Your task to perform on an android device: uninstall "Gboard" Image 0: 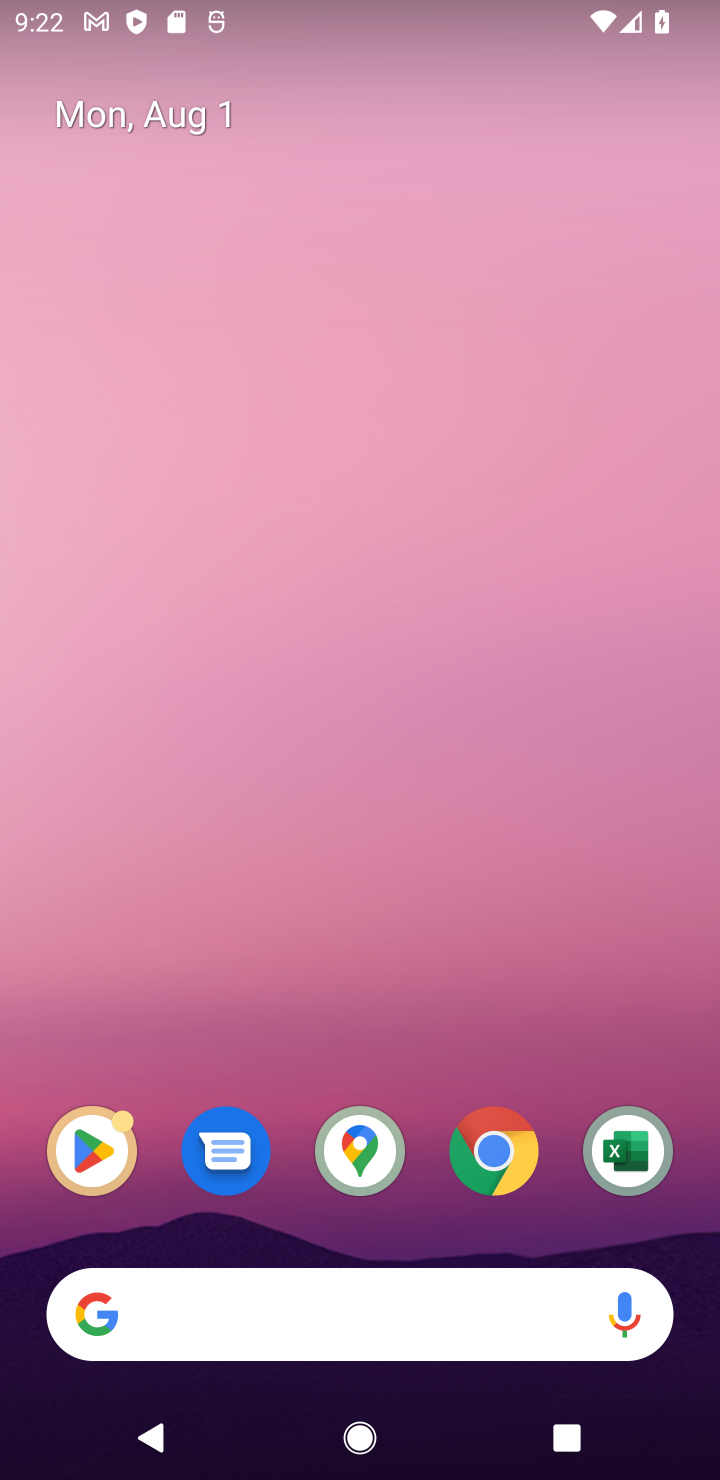
Step 0: drag from (414, 967) to (507, 269)
Your task to perform on an android device: uninstall "Gboard" Image 1: 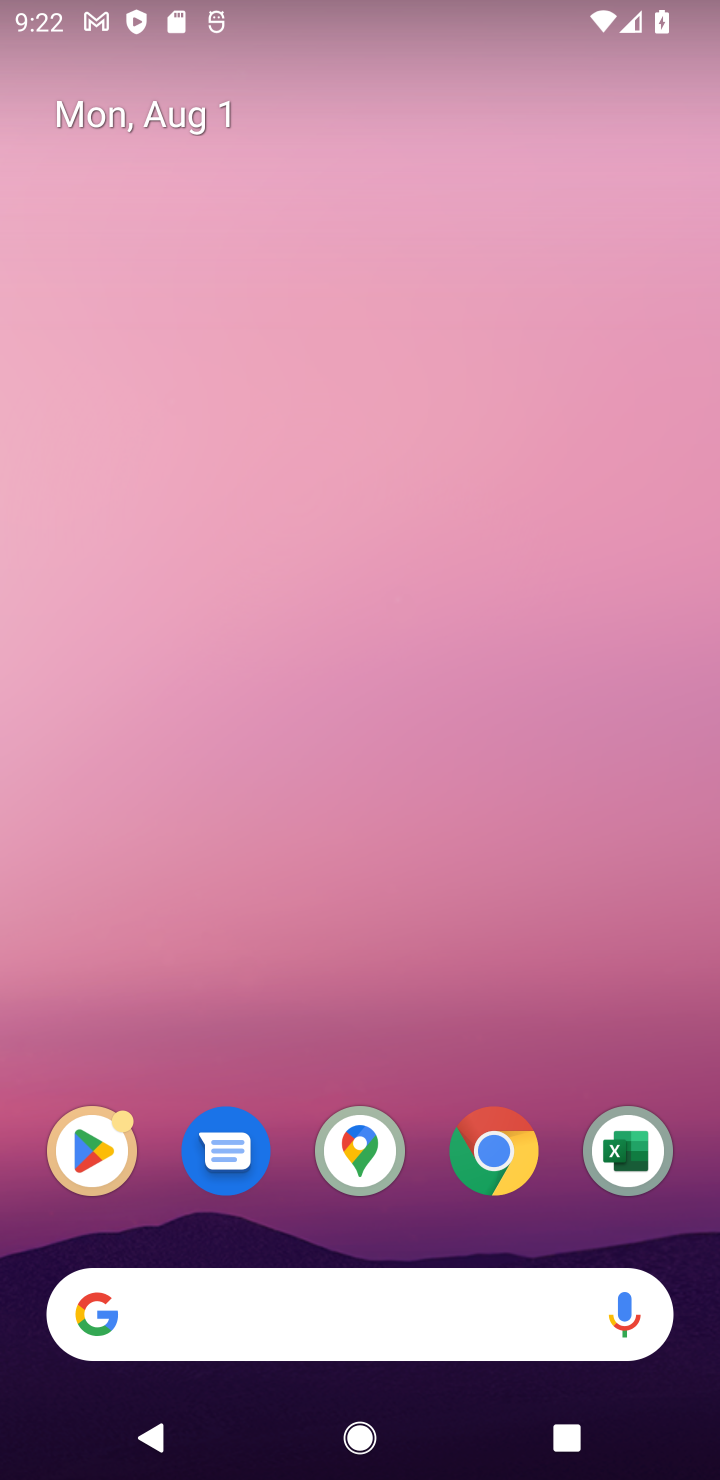
Step 1: drag from (389, 744) to (576, 135)
Your task to perform on an android device: uninstall "Gboard" Image 2: 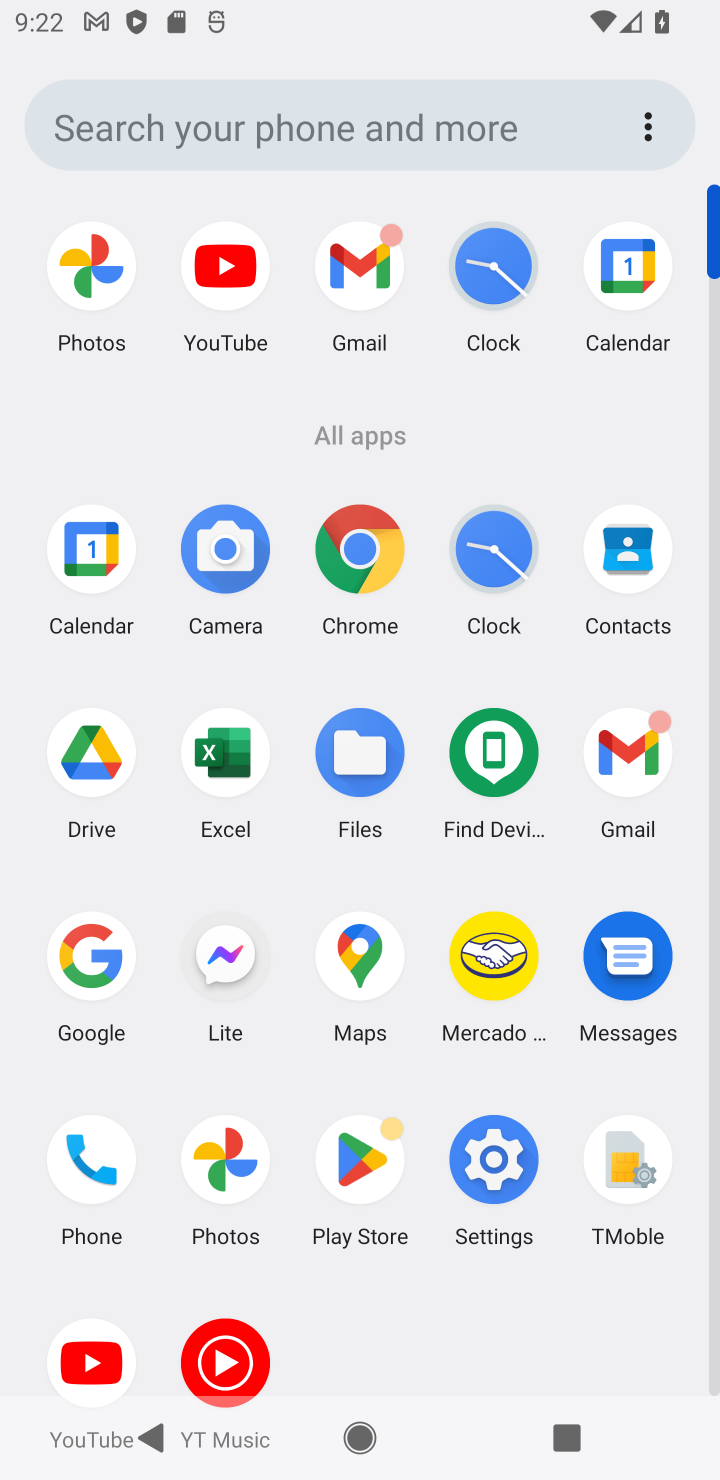
Step 2: click (335, 1171)
Your task to perform on an android device: uninstall "Gboard" Image 3: 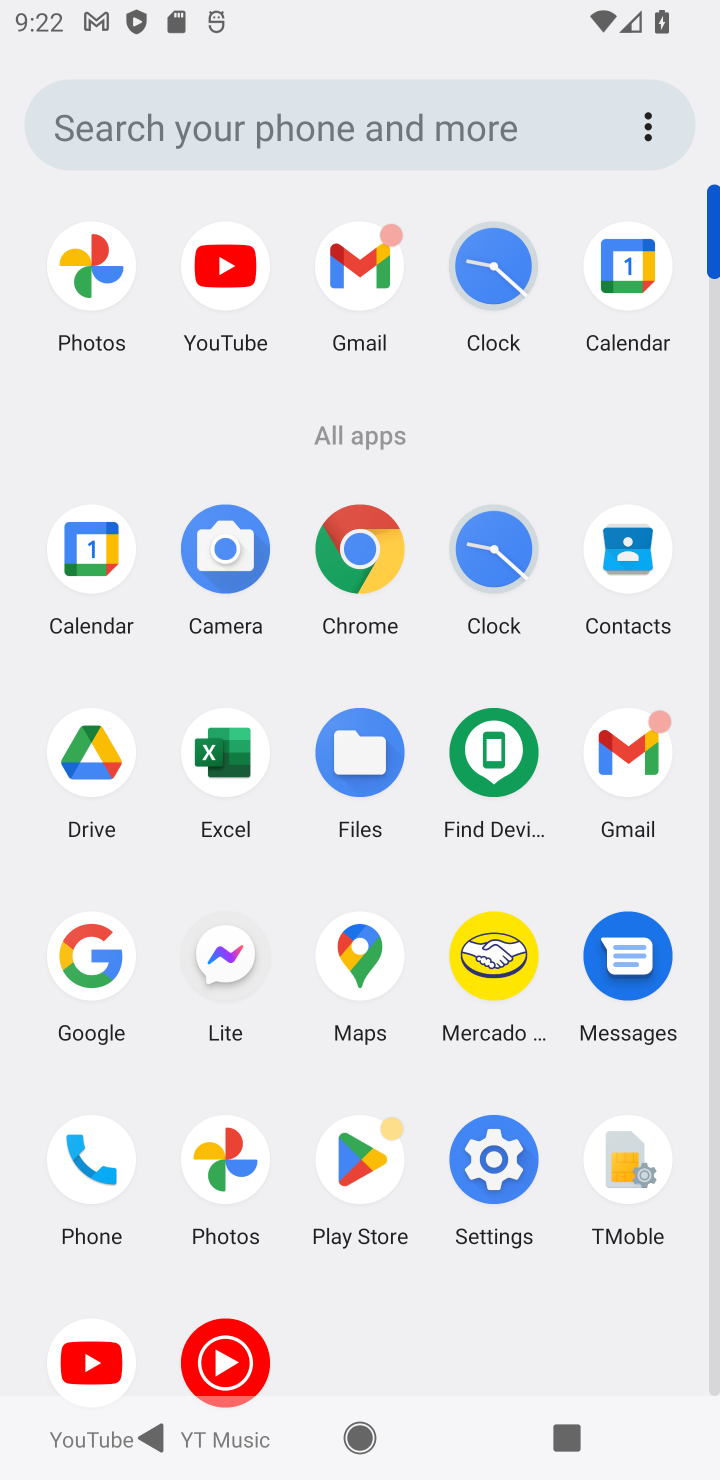
Step 3: click (336, 1173)
Your task to perform on an android device: uninstall "Gboard" Image 4: 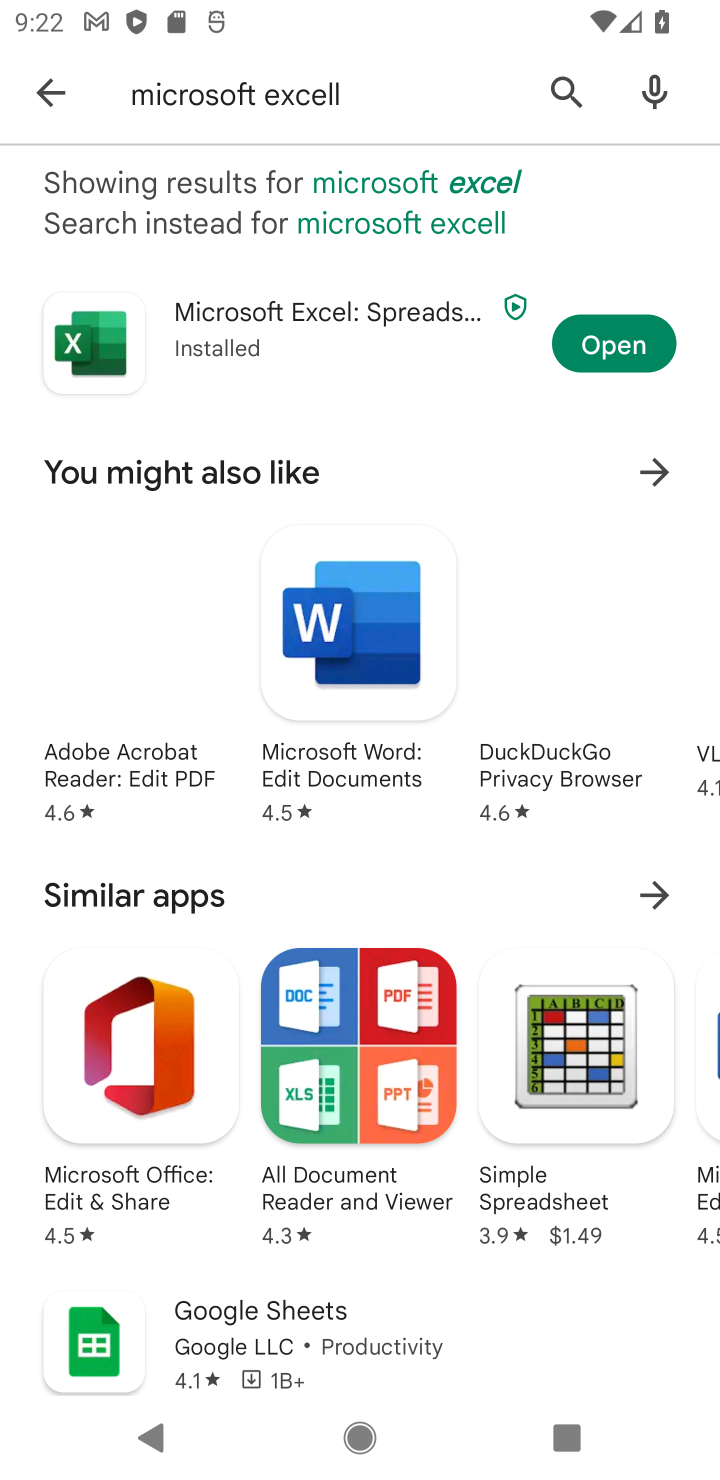
Step 4: click (352, 1176)
Your task to perform on an android device: uninstall "Gboard" Image 5: 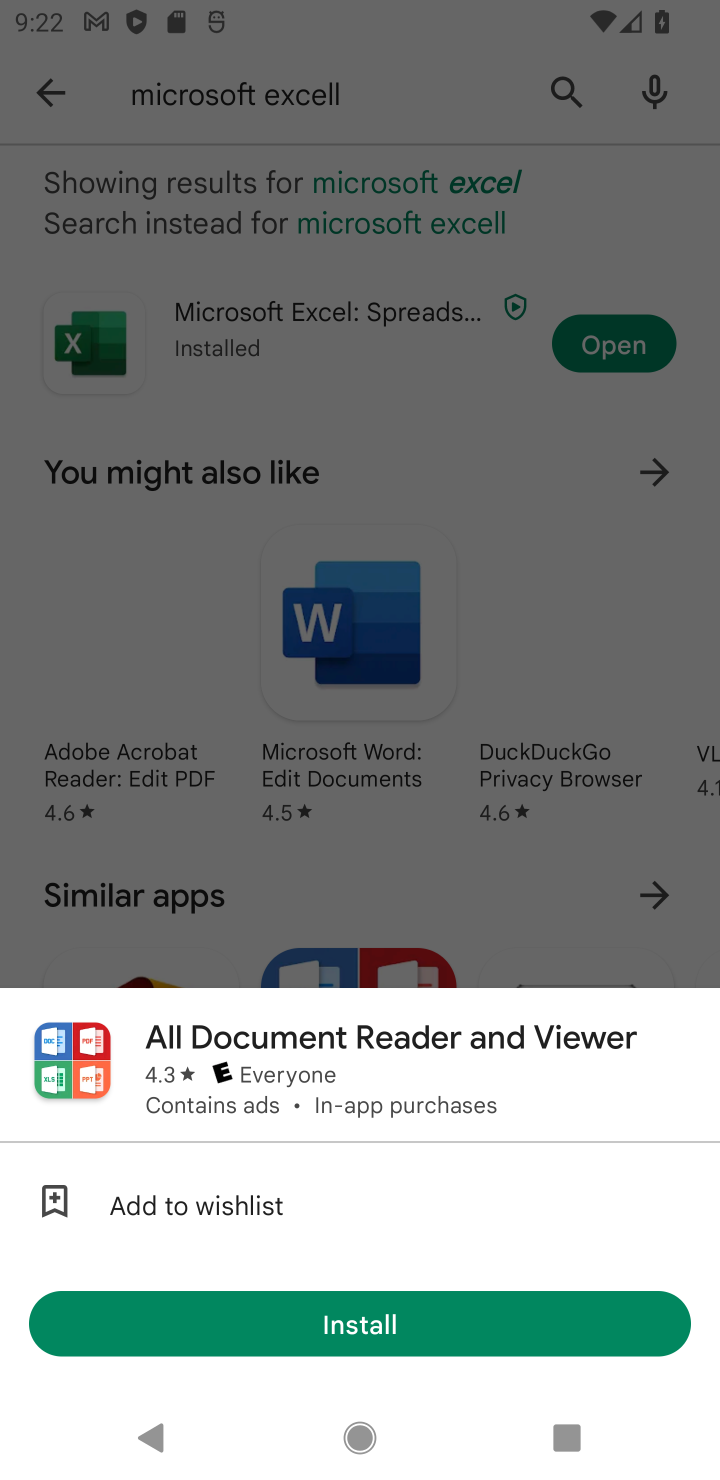
Step 5: click (495, 488)
Your task to perform on an android device: uninstall "Gboard" Image 6: 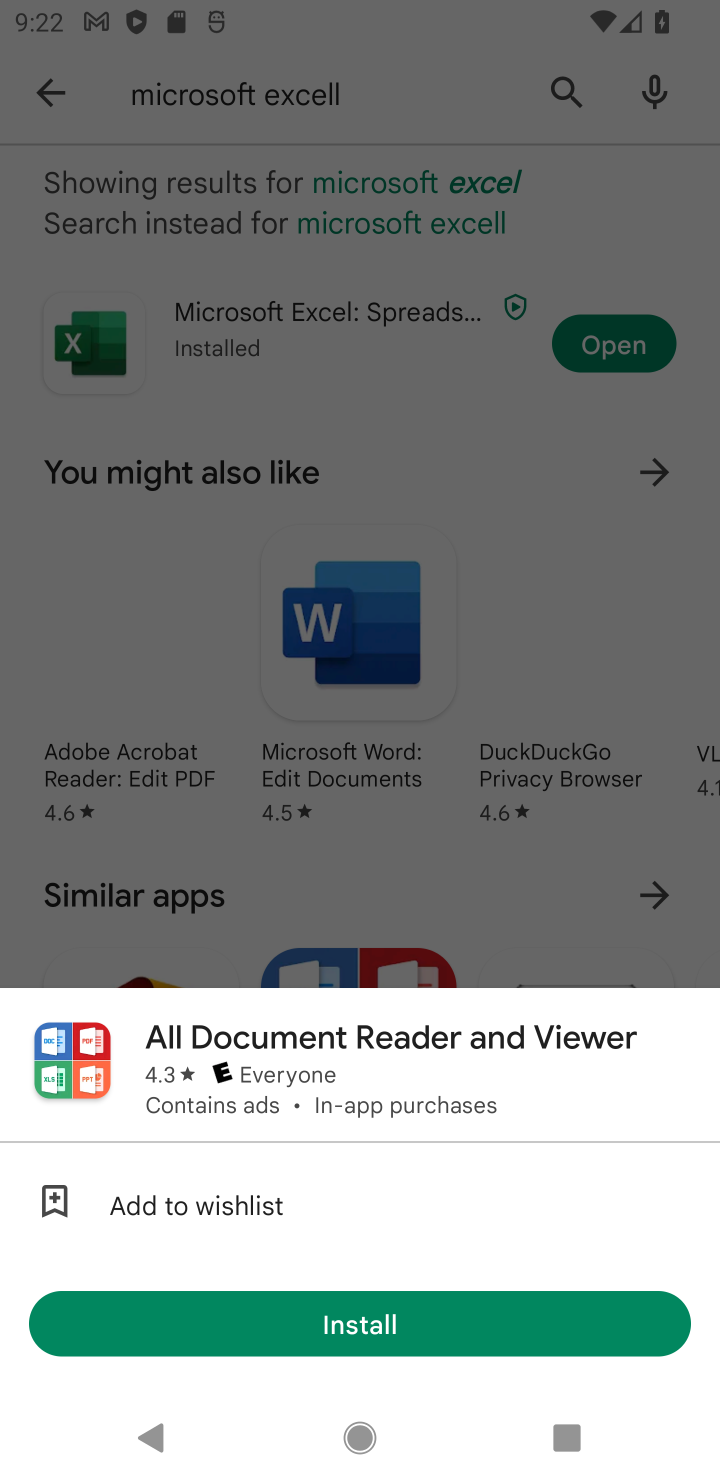
Step 6: click (495, 488)
Your task to perform on an android device: uninstall "Gboard" Image 7: 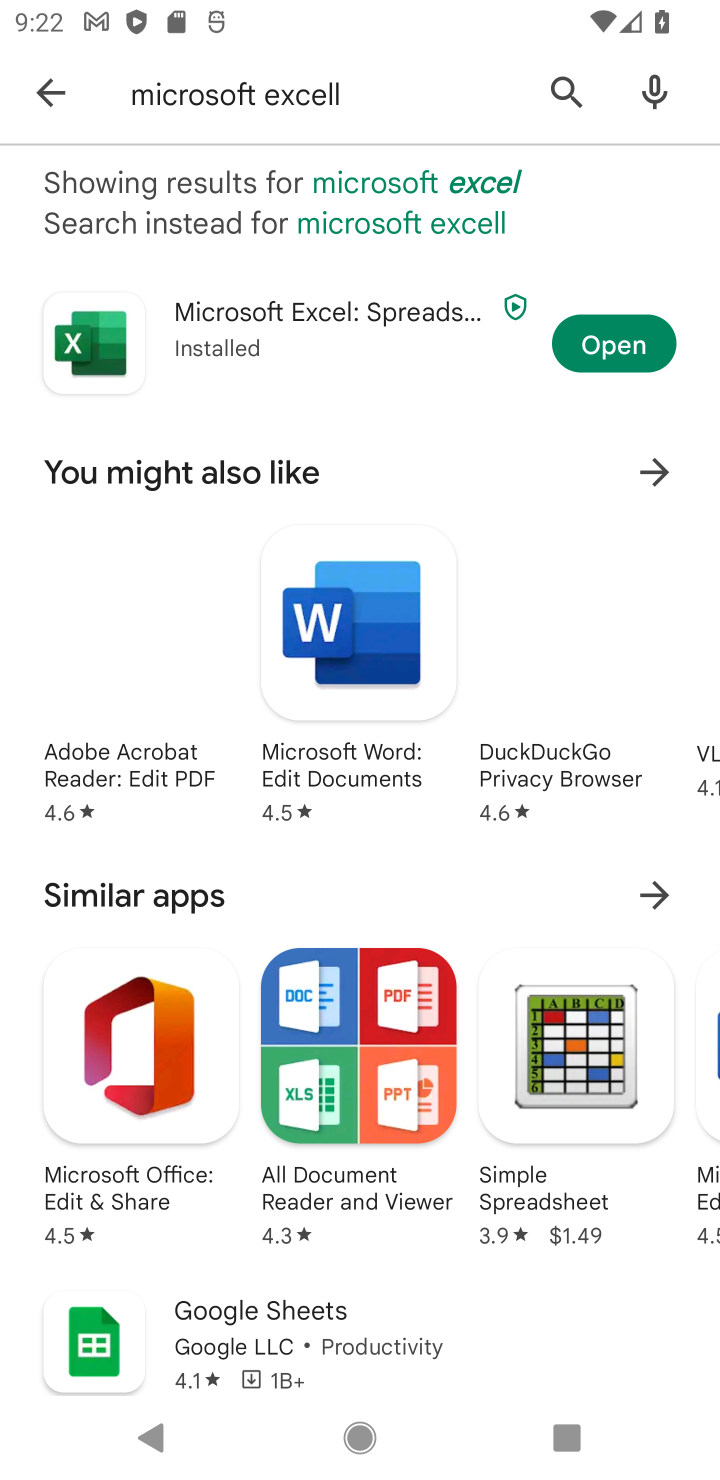
Step 7: click (555, 599)
Your task to perform on an android device: uninstall "Gboard" Image 8: 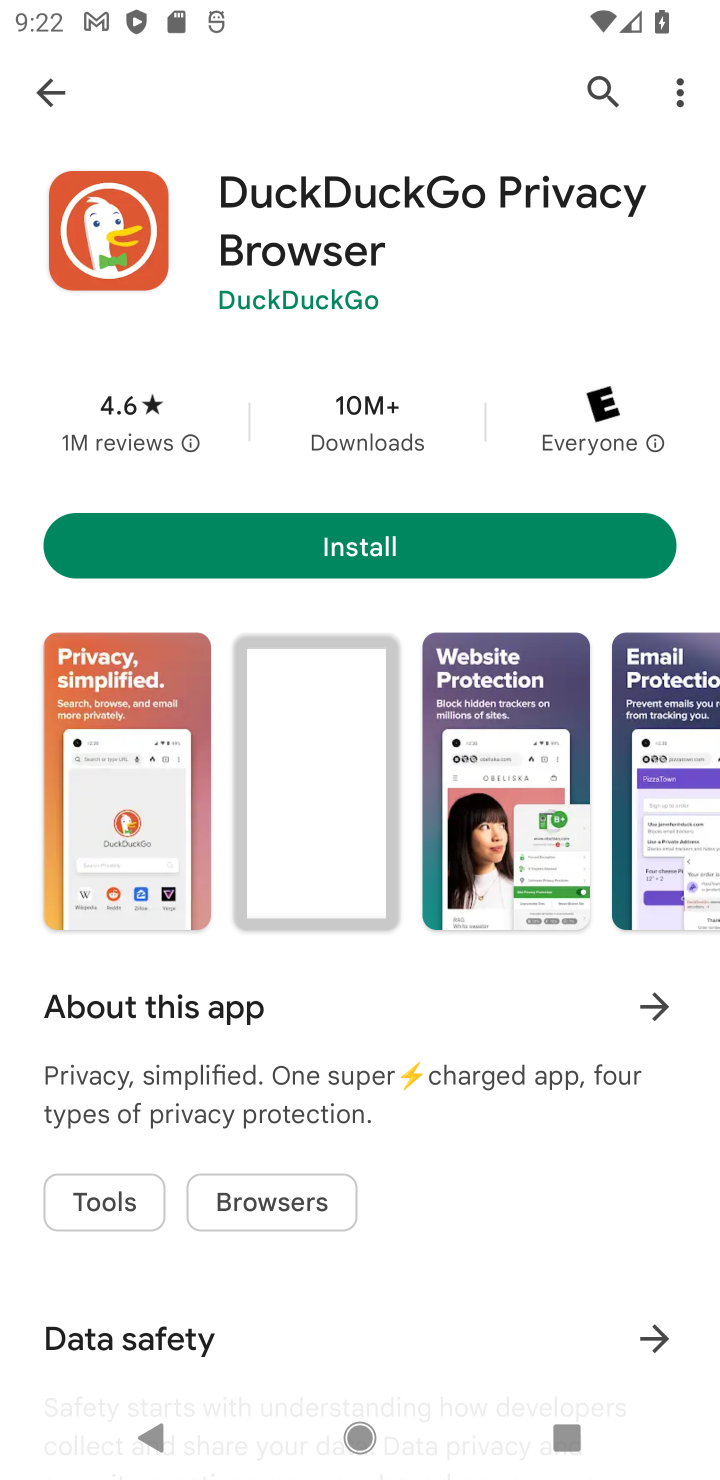
Step 8: click (64, 67)
Your task to perform on an android device: uninstall "Gboard" Image 9: 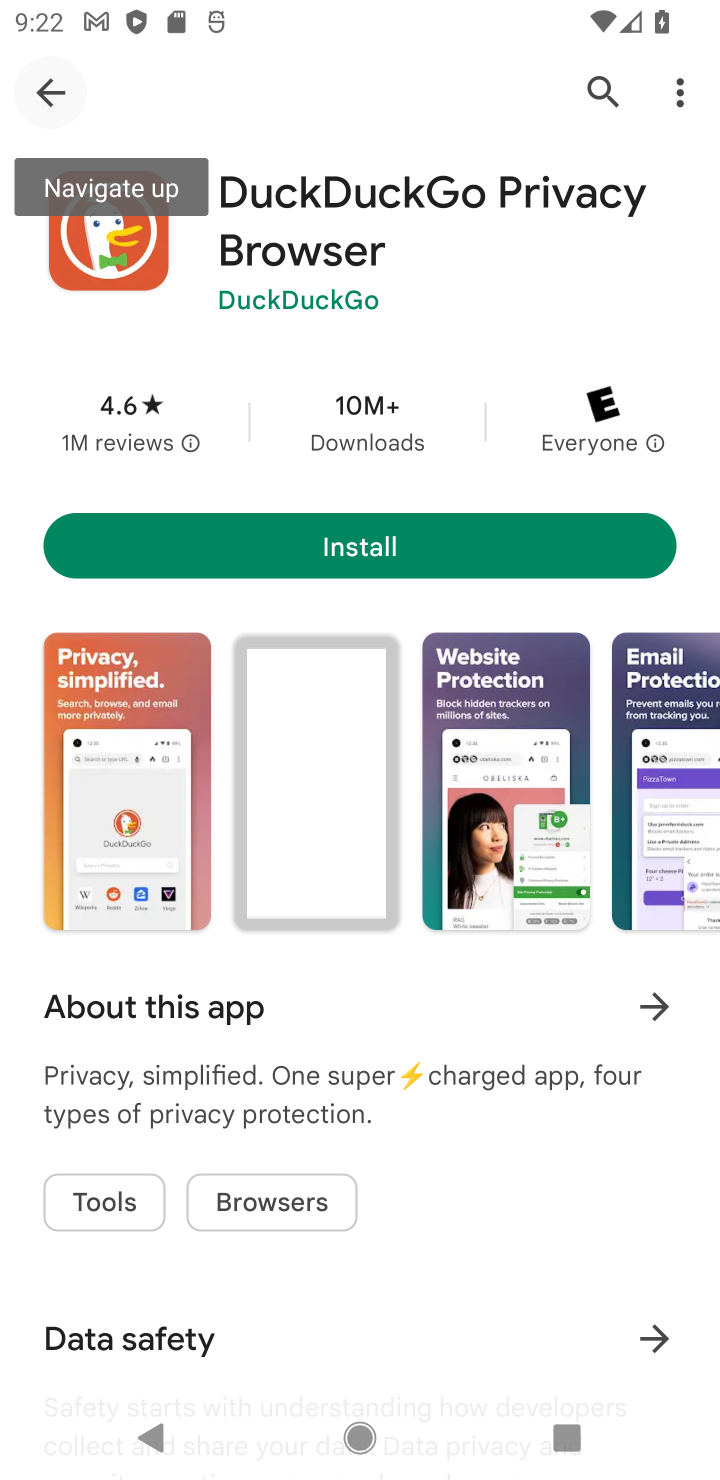
Step 9: click (55, 91)
Your task to perform on an android device: uninstall "Gboard" Image 10: 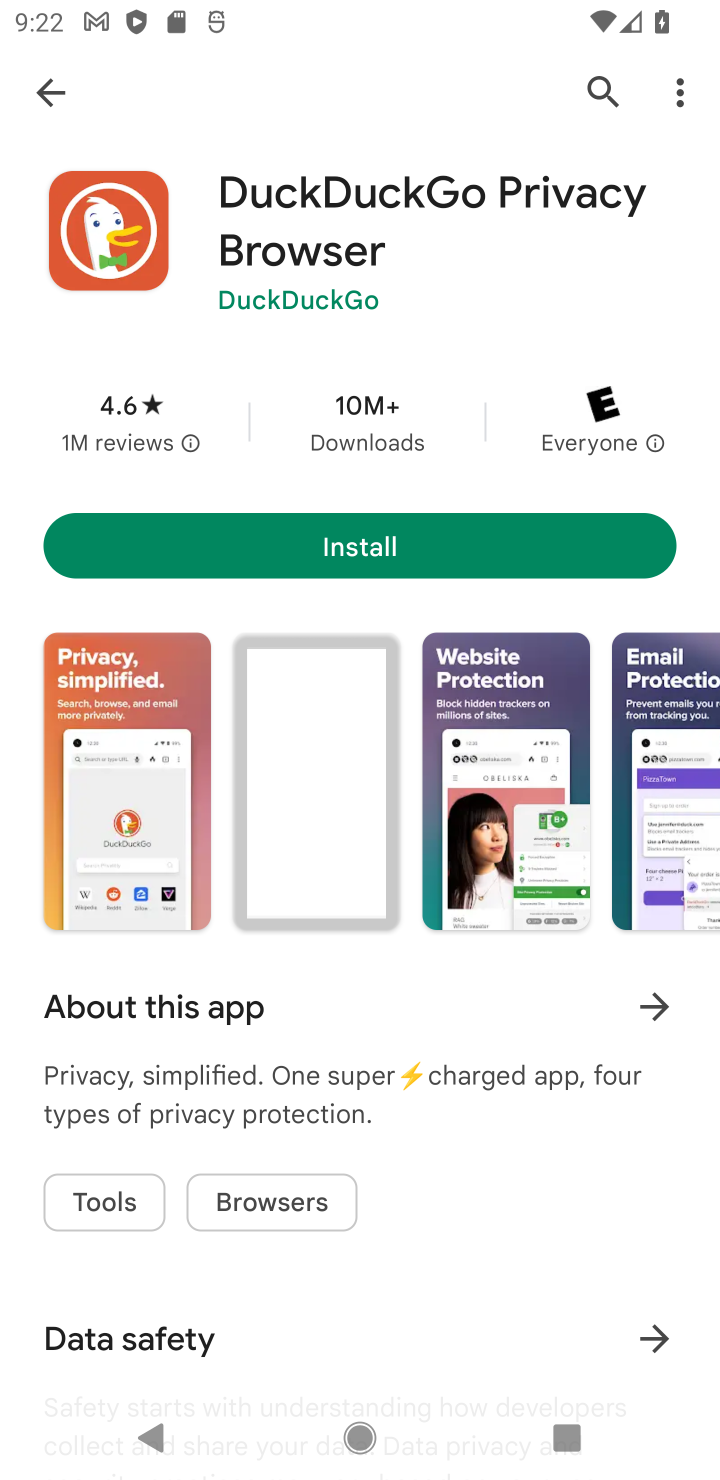
Step 10: click (56, 84)
Your task to perform on an android device: uninstall "Gboard" Image 11: 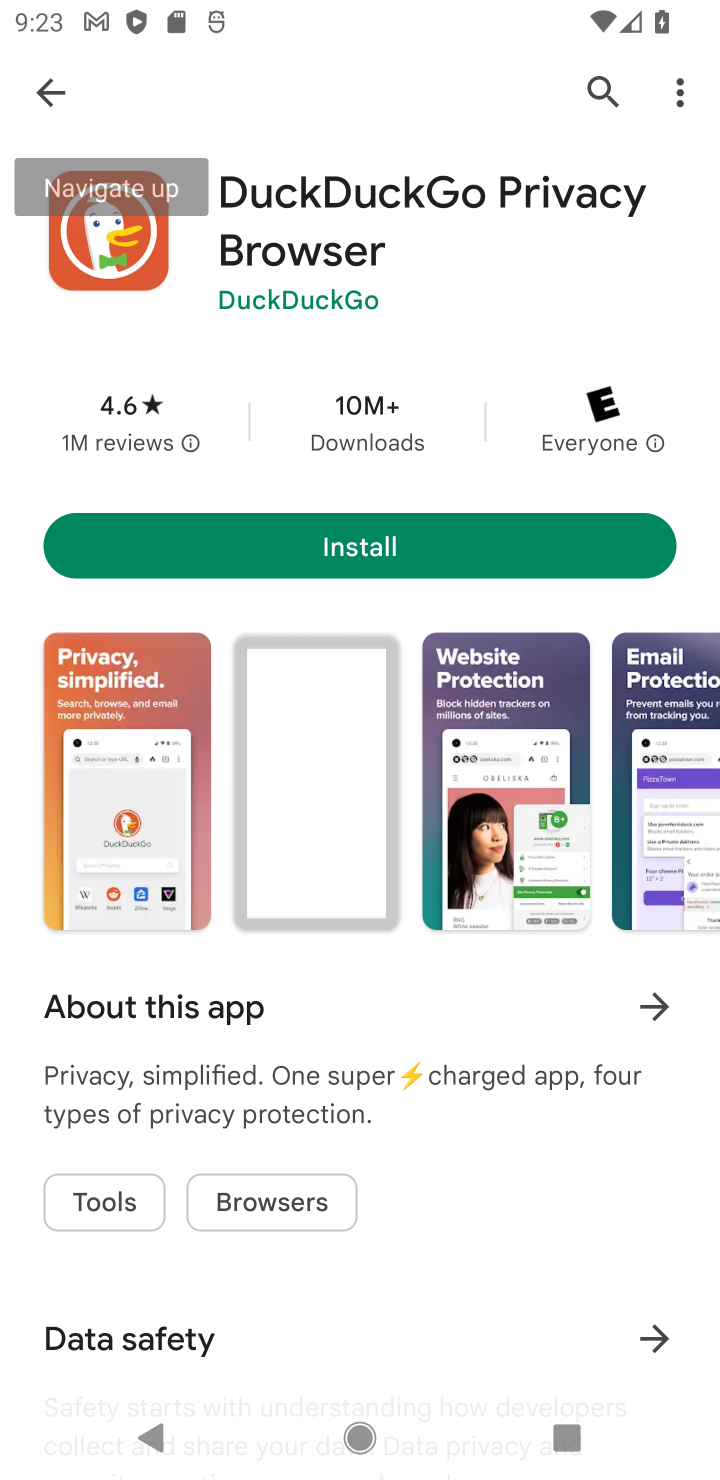
Step 11: click (60, 89)
Your task to perform on an android device: uninstall "Gboard" Image 12: 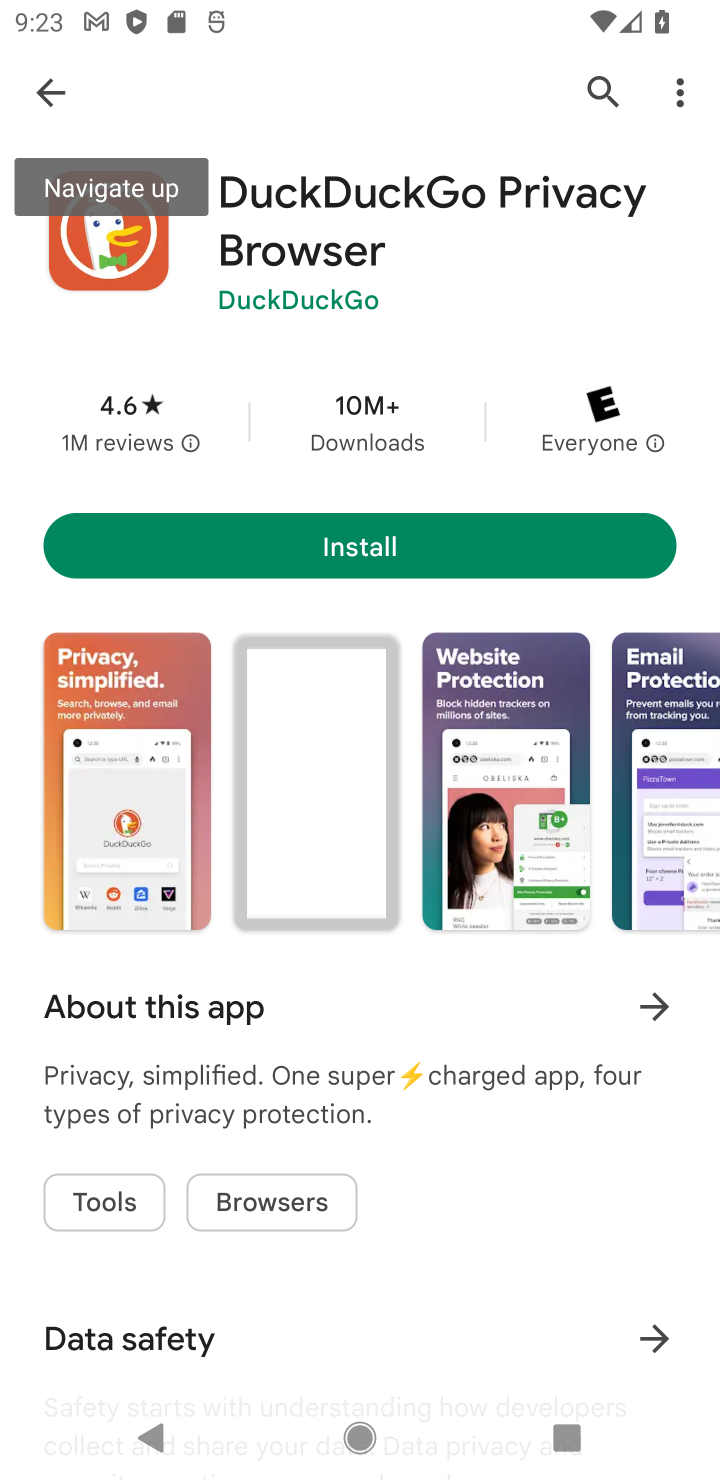
Step 12: click (33, 85)
Your task to perform on an android device: uninstall "Gboard" Image 13: 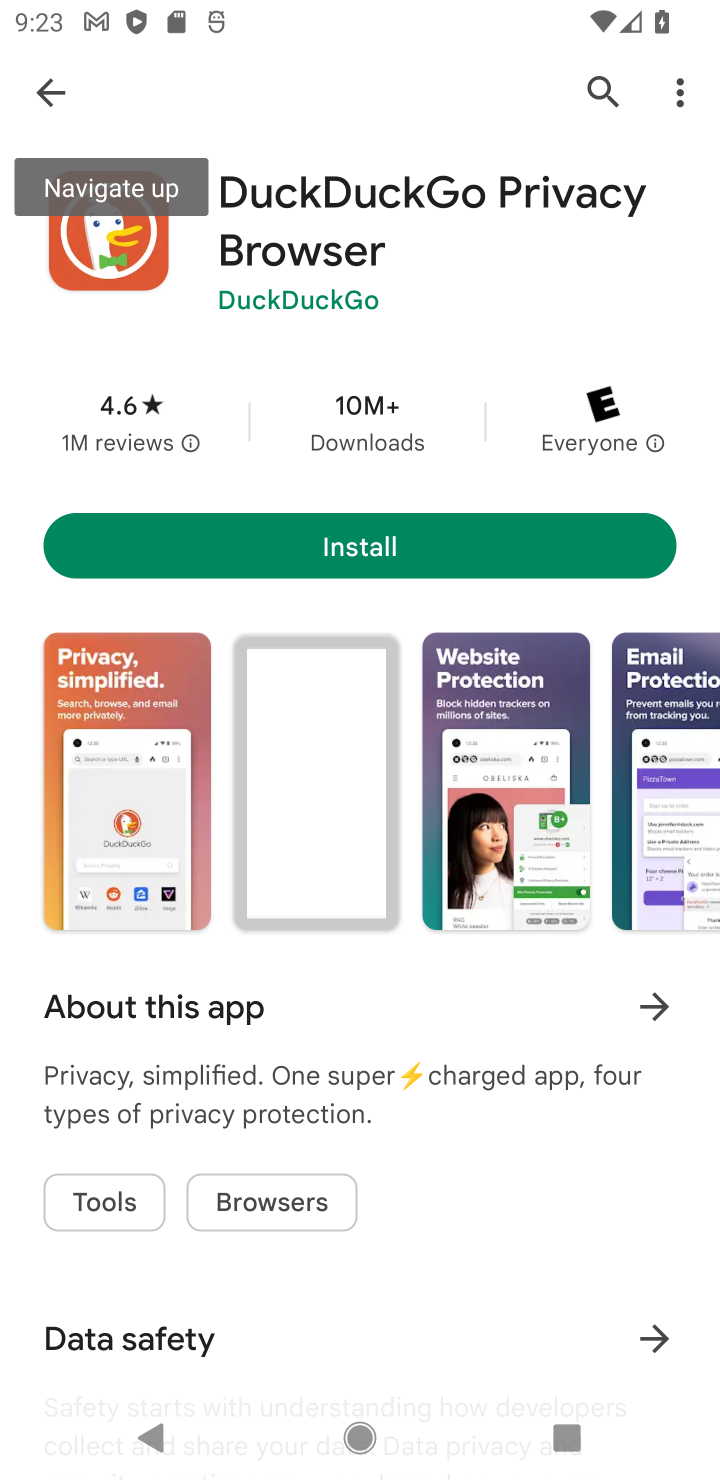
Step 13: click (92, 64)
Your task to perform on an android device: uninstall "Gboard" Image 14: 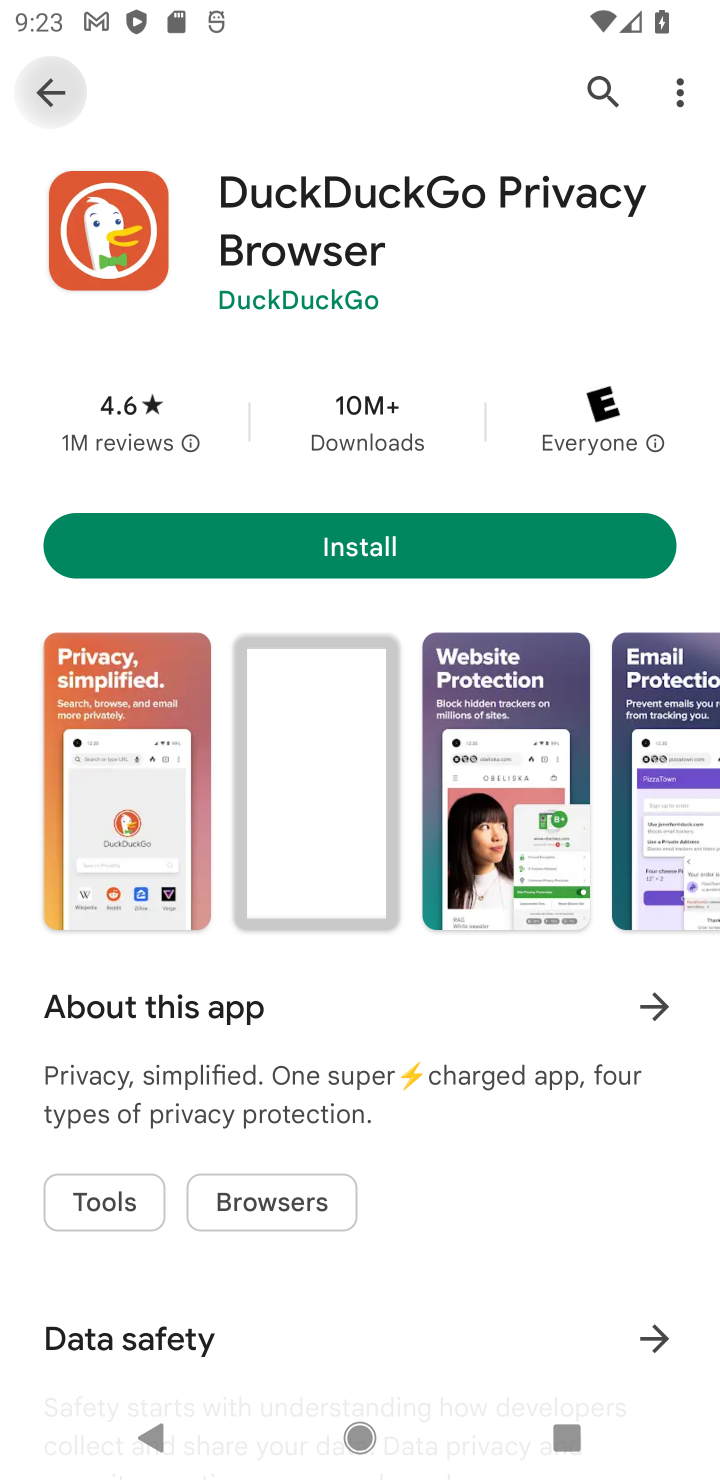
Step 14: click (51, 88)
Your task to perform on an android device: uninstall "Gboard" Image 15: 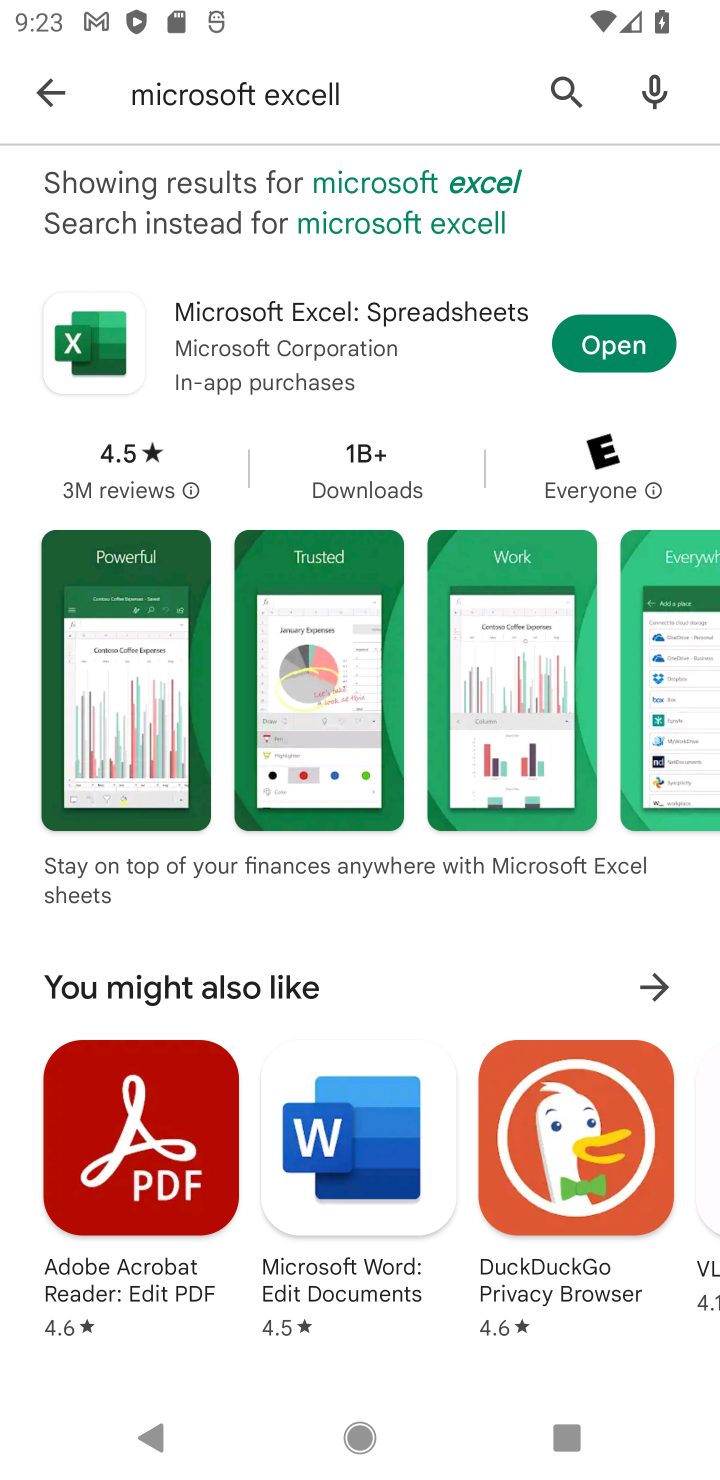
Step 15: click (44, 79)
Your task to perform on an android device: uninstall "Gboard" Image 16: 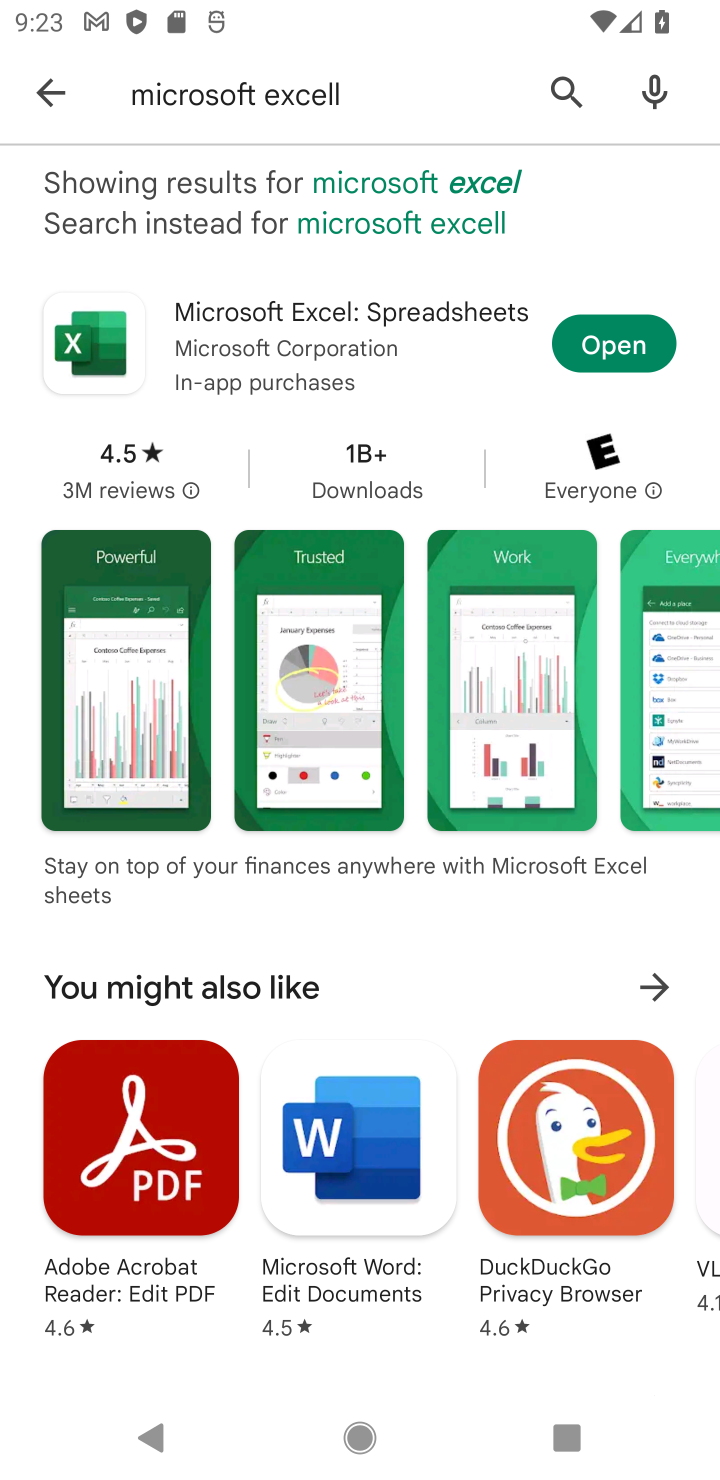
Step 16: click (65, 106)
Your task to perform on an android device: uninstall "Gboard" Image 17: 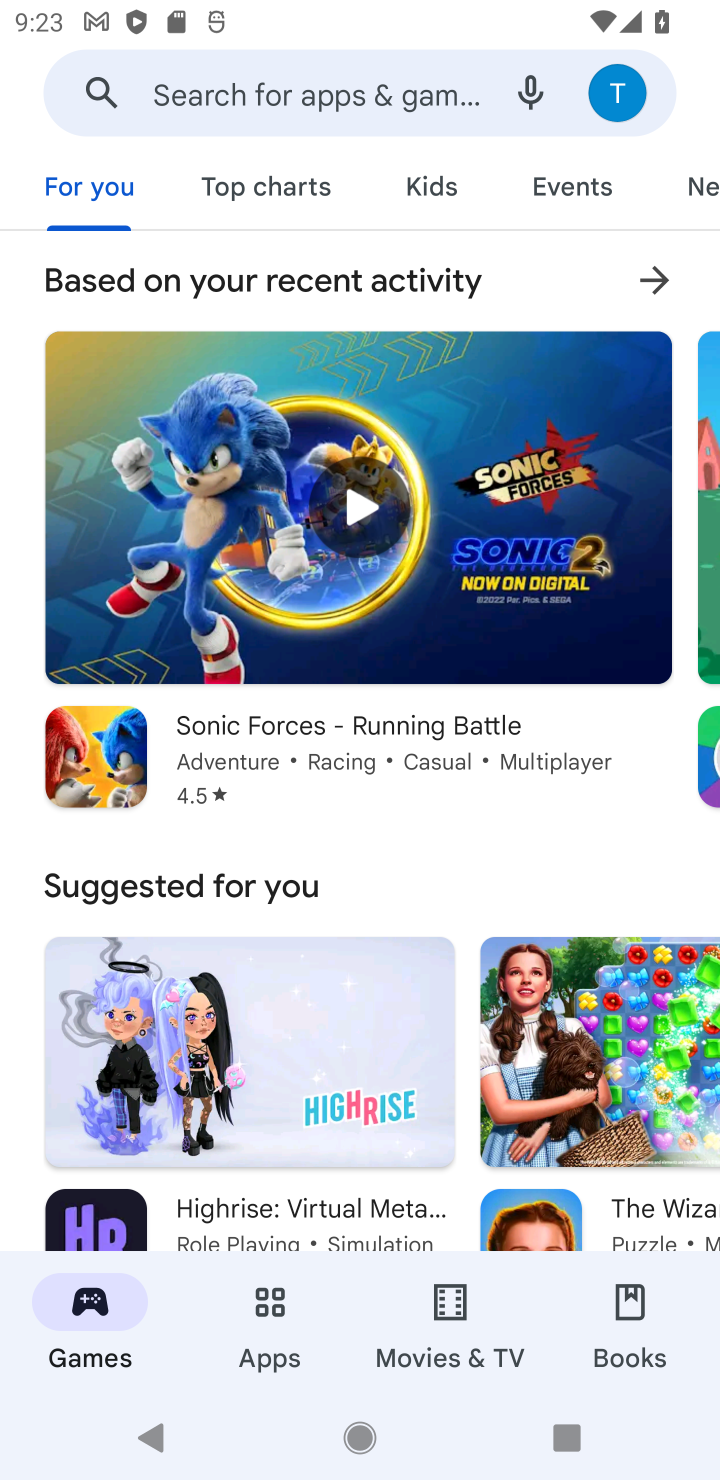
Step 17: click (180, 82)
Your task to perform on an android device: uninstall "Gboard" Image 18: 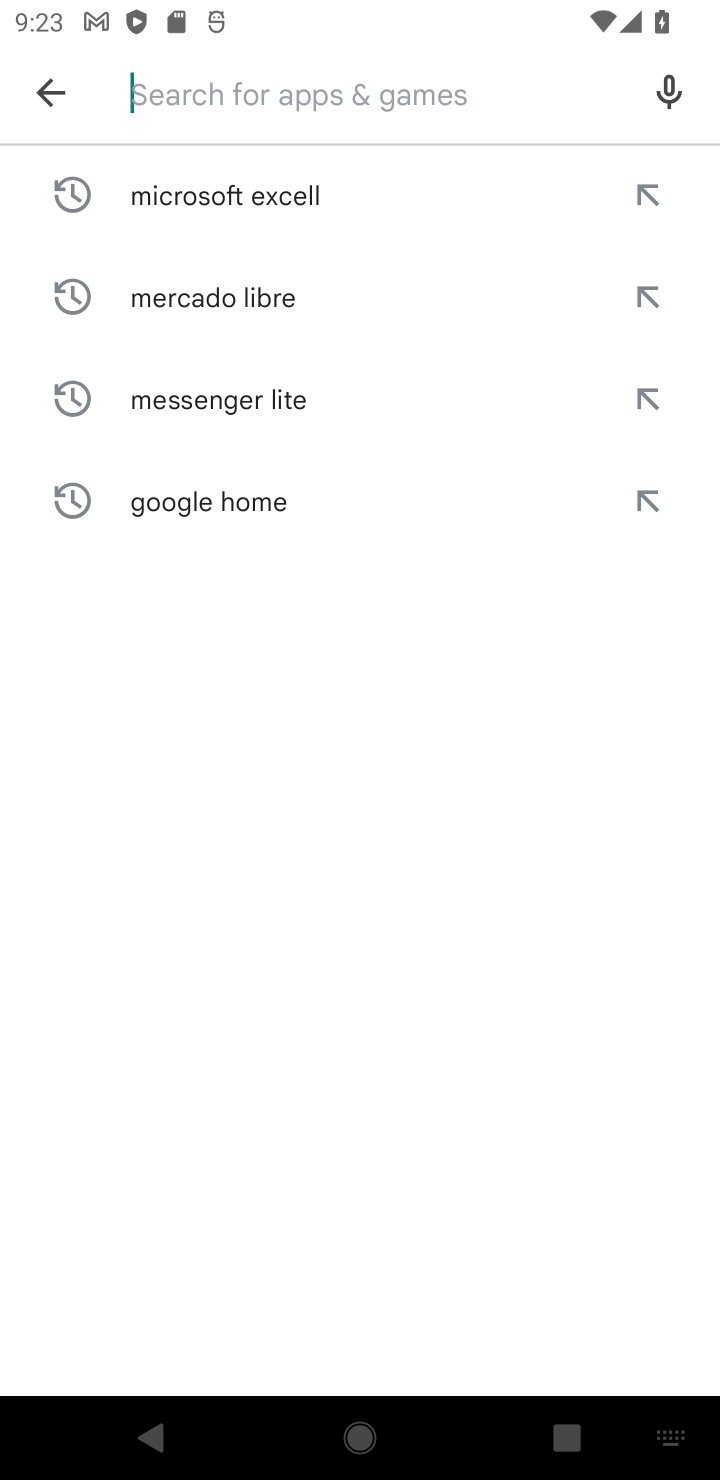
Step 18: type "gboard"
Your task to perform on an android device: uninstall "Gboard" Image 19: 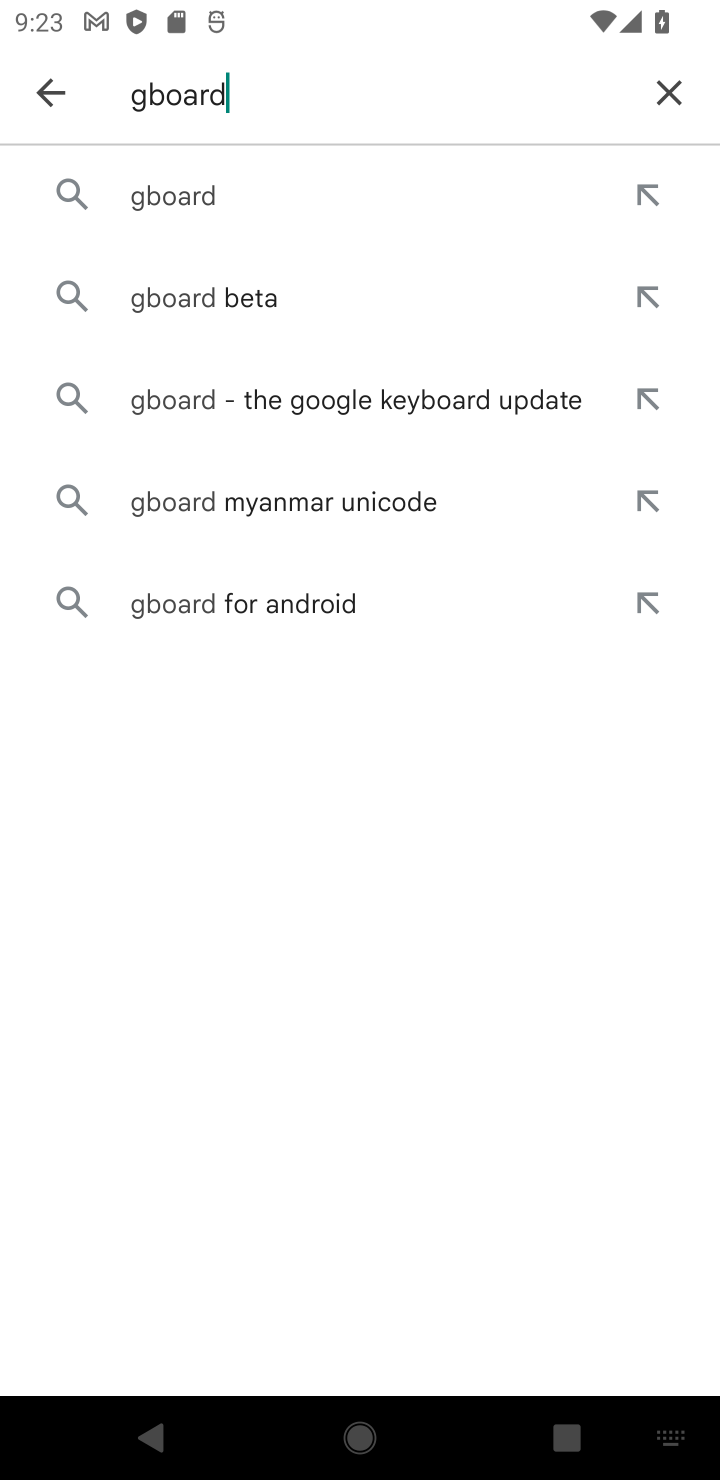
Step 19: click (212, 159)
Your task to perform on an android device: uninstall "Gboard" Image 20: 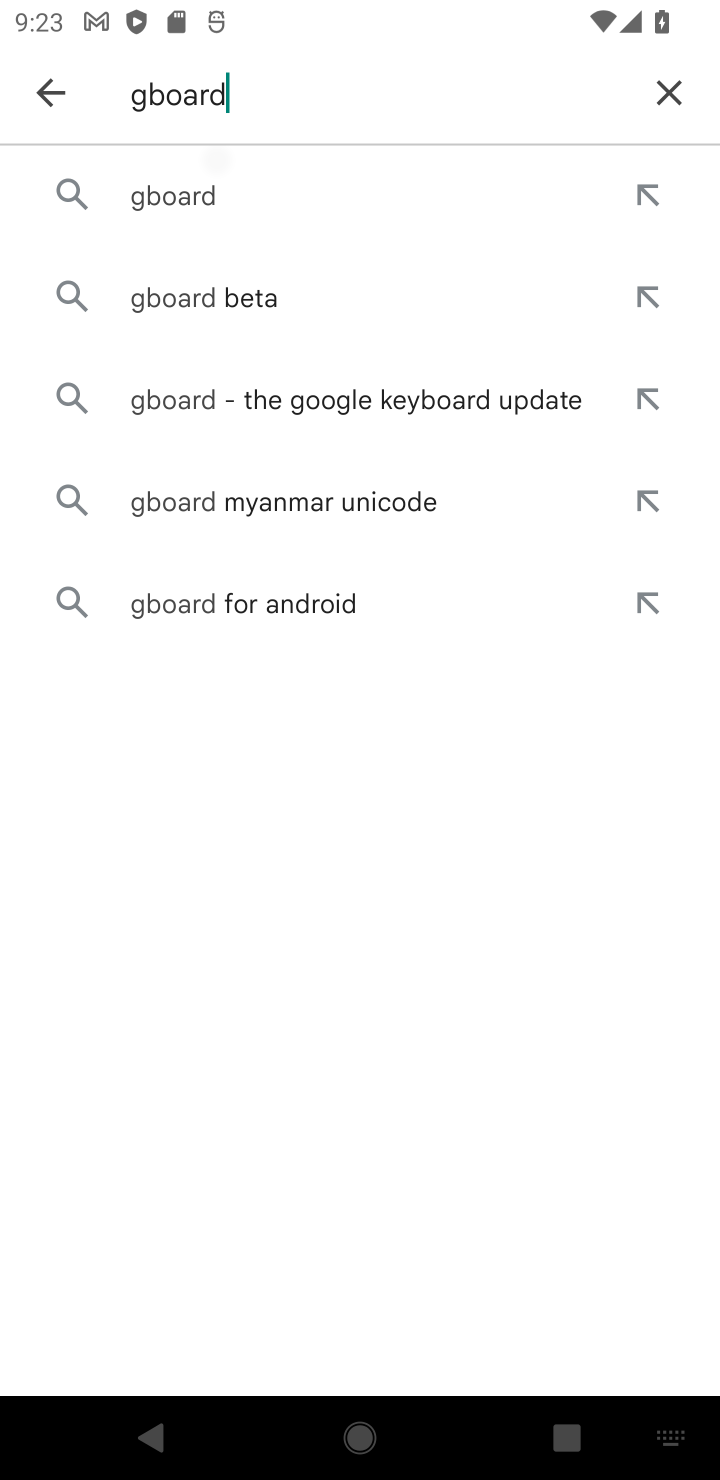
Step 20: click (235, 187)
Your task to perform on an android device: uninstall "Gboard" Image 21: 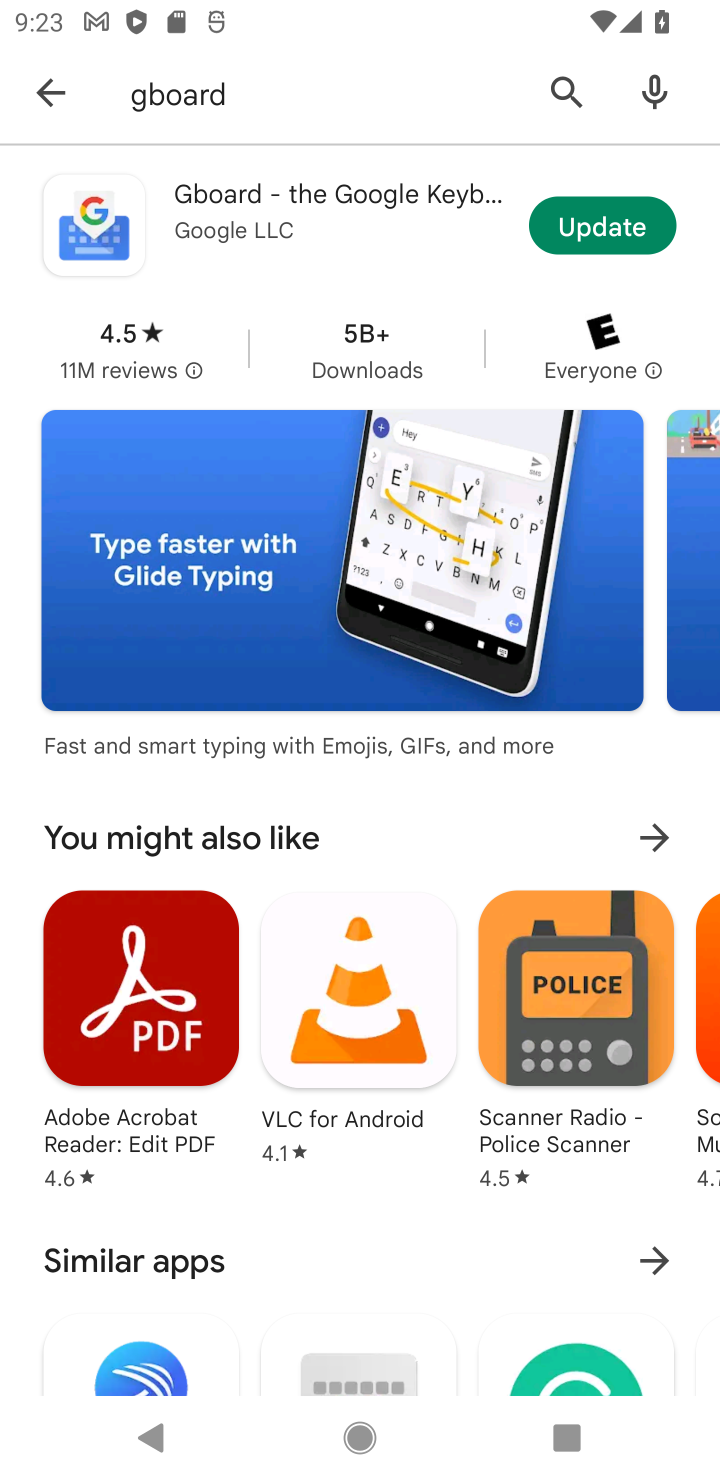
Step 21: click (612, 226)
Your task to perform on an android device: uninstall "Gboard" Image 22: 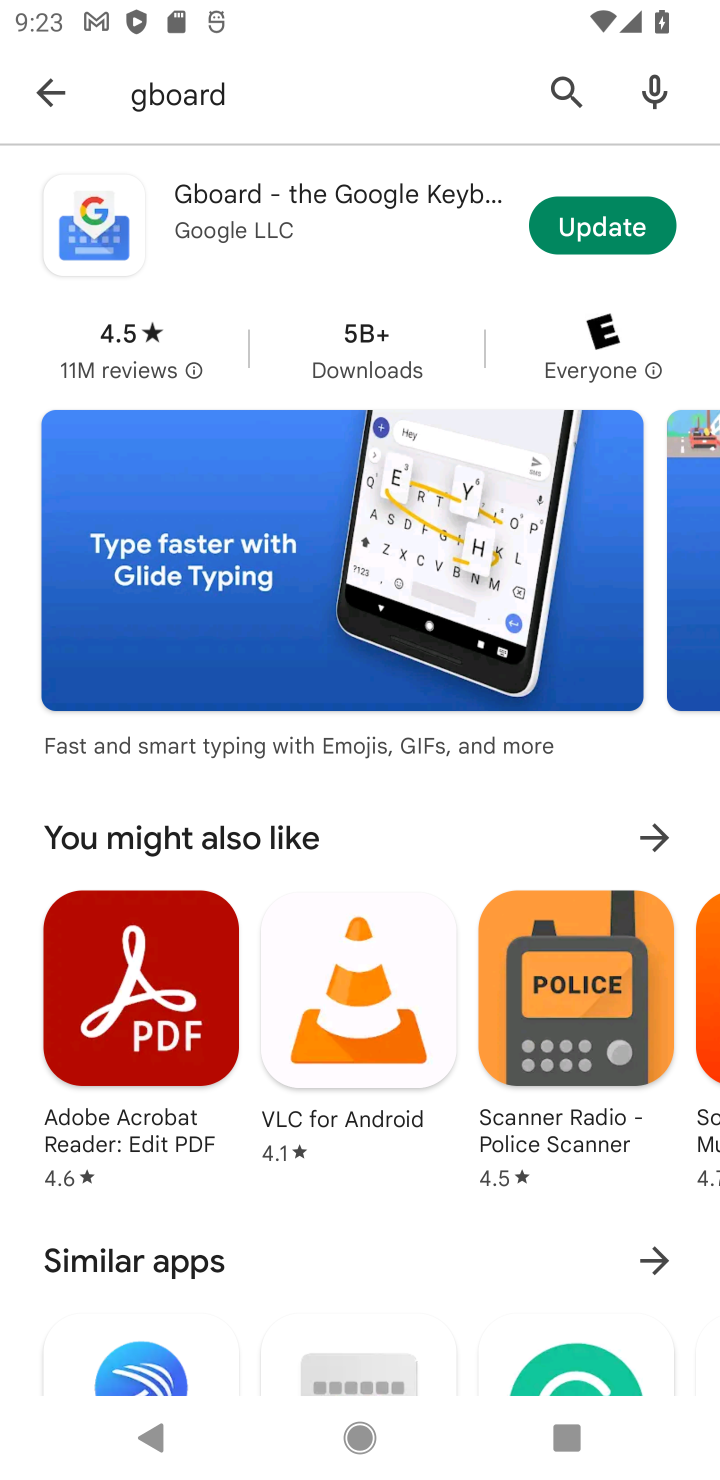
Step 22: click (612, 226)
Your task to perform on an android device: uninstall "Gboard" Image 23: 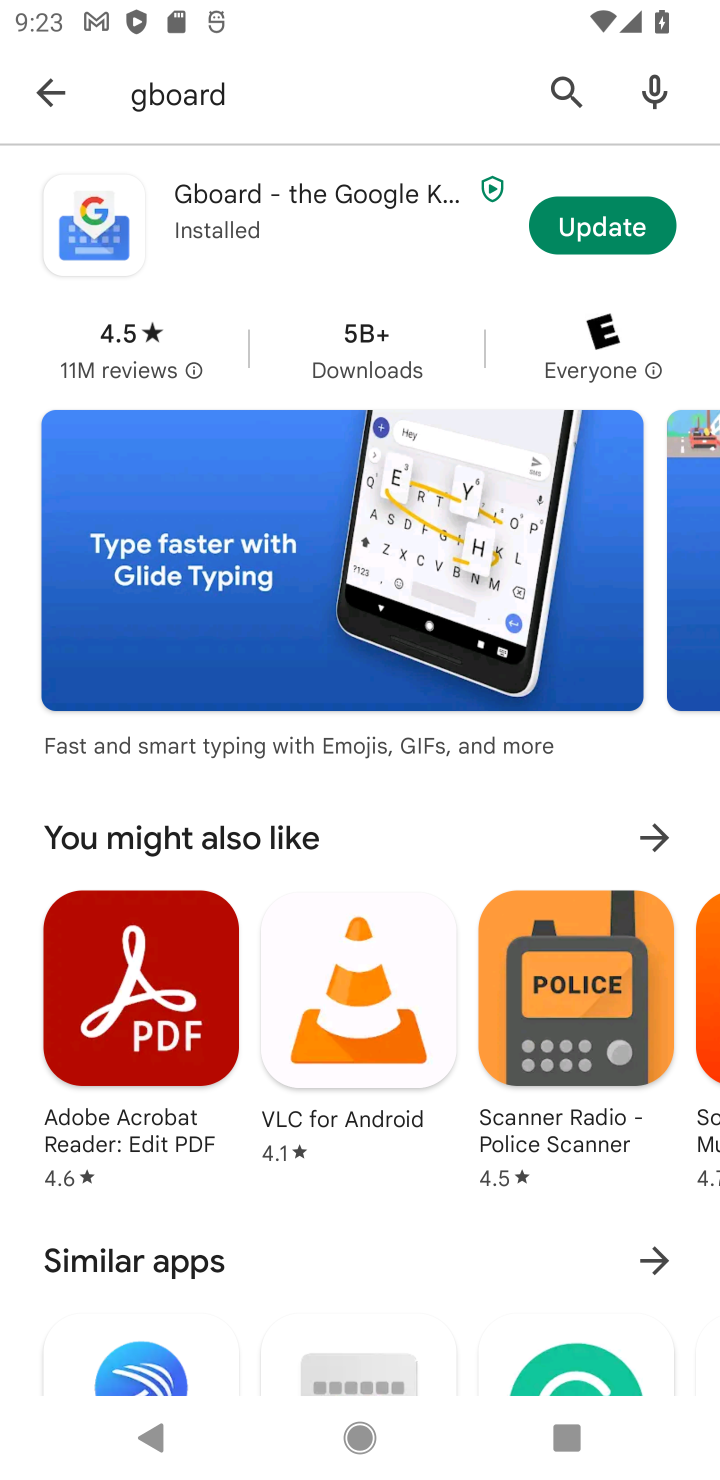
Step 23: click (581, 190)
Your task to perform on an android device: uninstall "Gboard" Image 24: 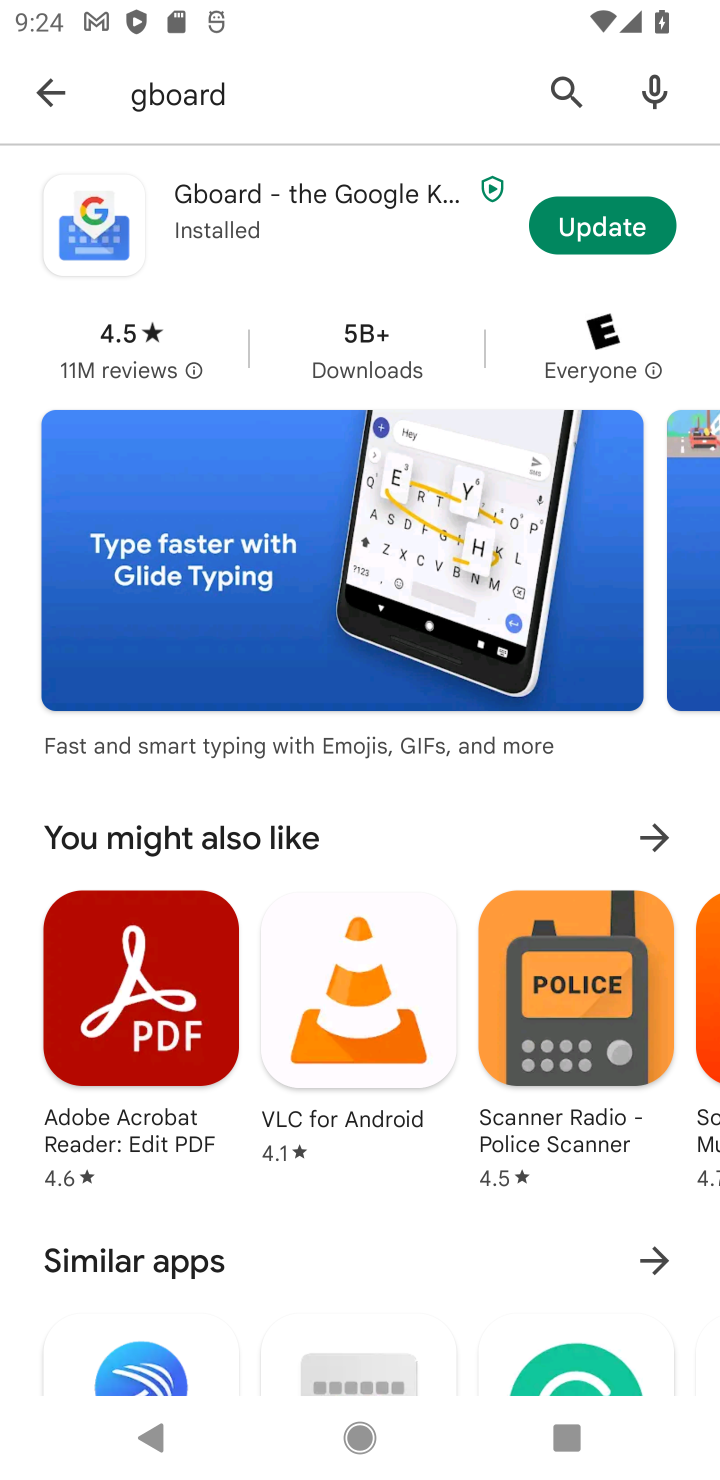
Step 24: click (617, 205)
Your task to perform on an android device: uninstall "Gboard" Image 25: 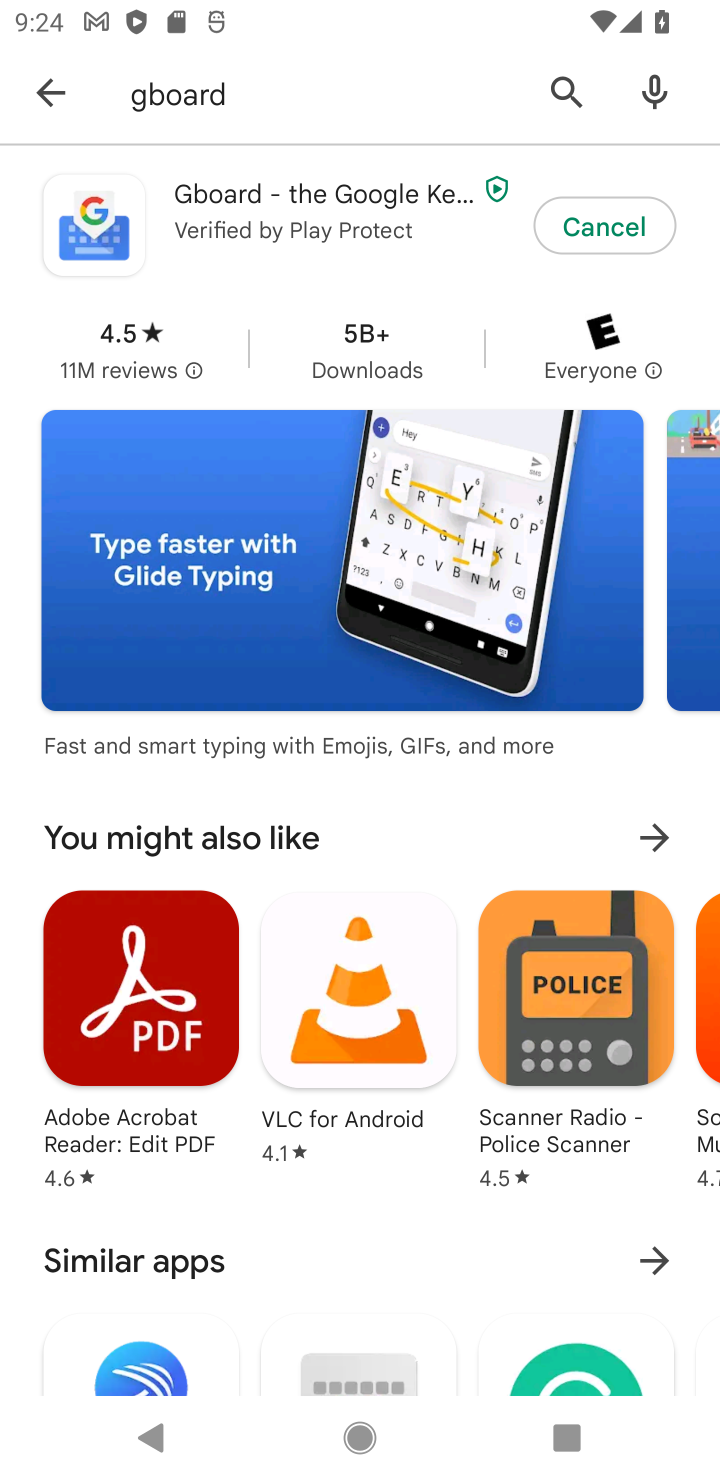
Step 25: click (621, 207)
Your task to perform on an android device: uninstall "Gboard" Image 26: 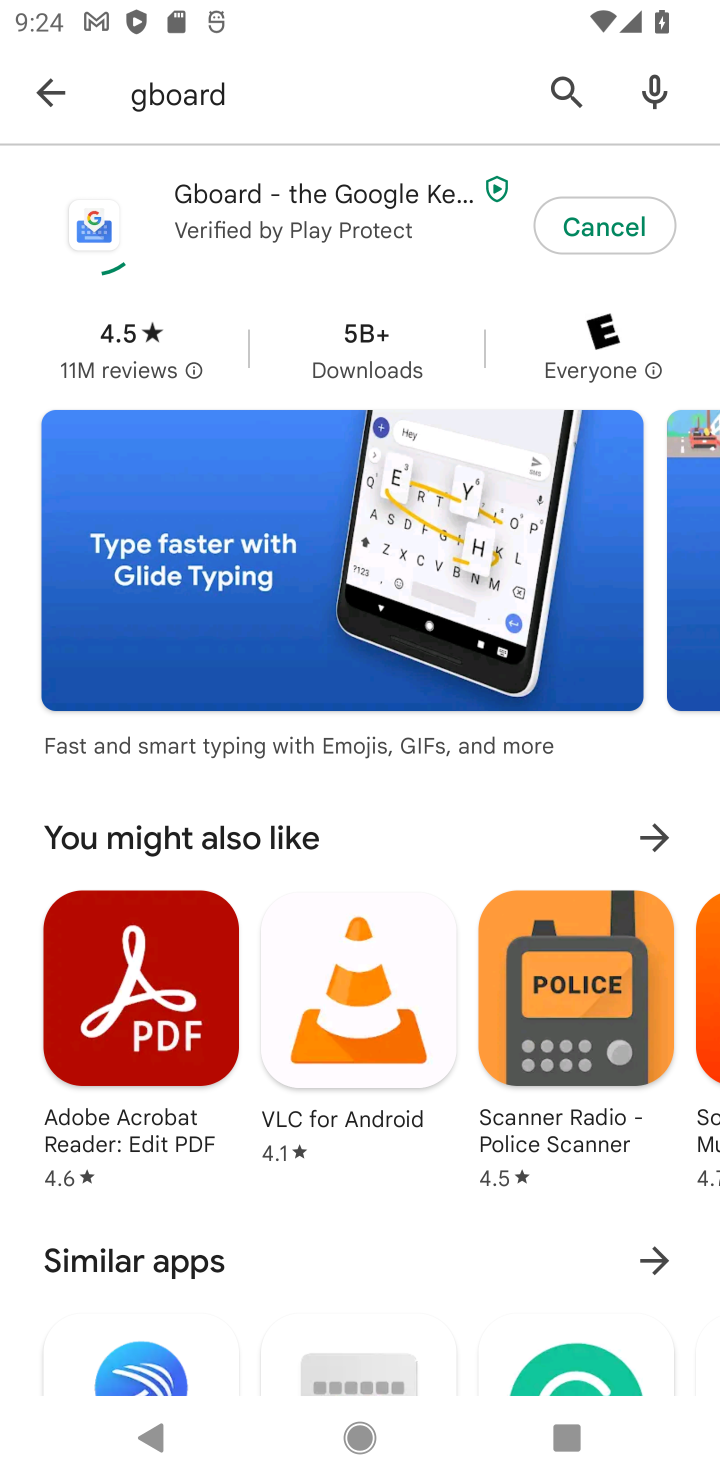
Step 26: click (645, 232)
Your task to perform on an android device: uninstall "Gboard" Image 27: 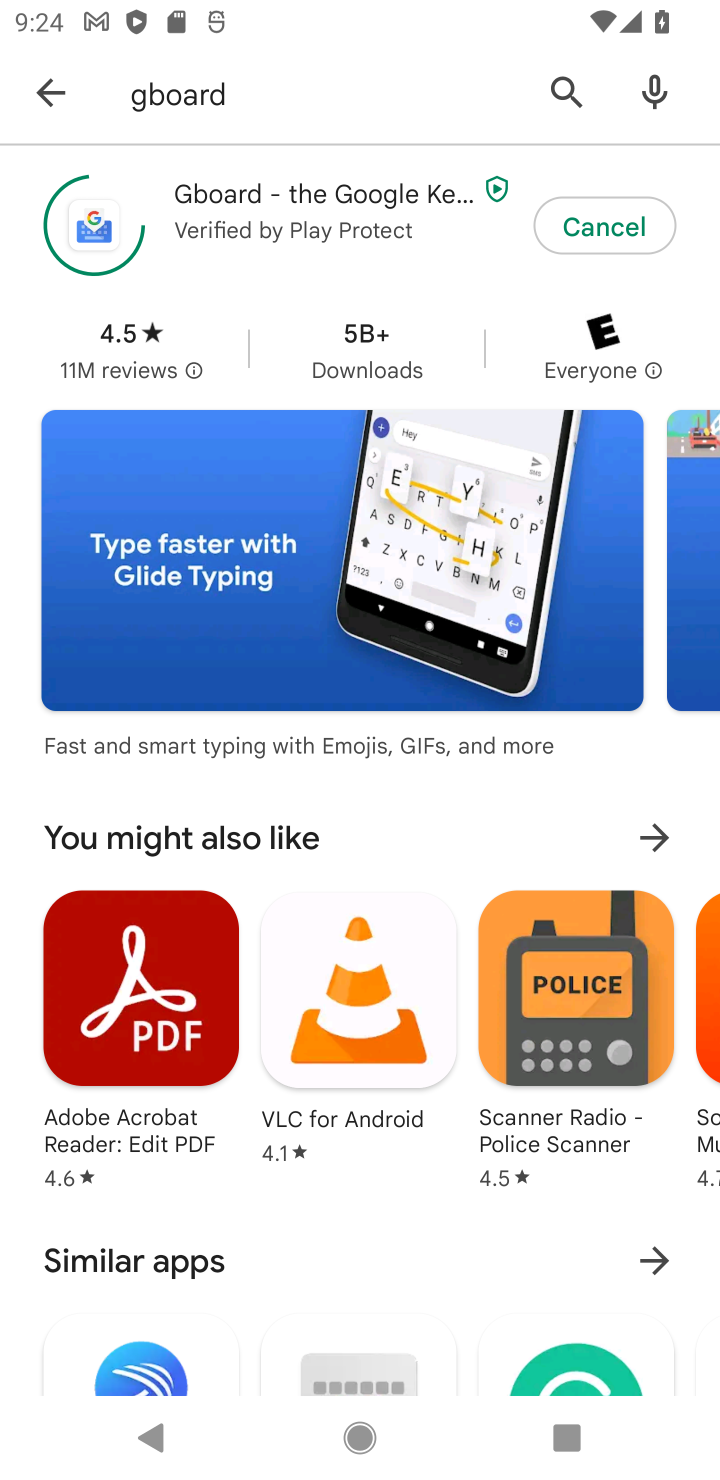
Step 27: click (646, 232)
Your task to perform on an android device: uninstall "Gboard" Image 28: 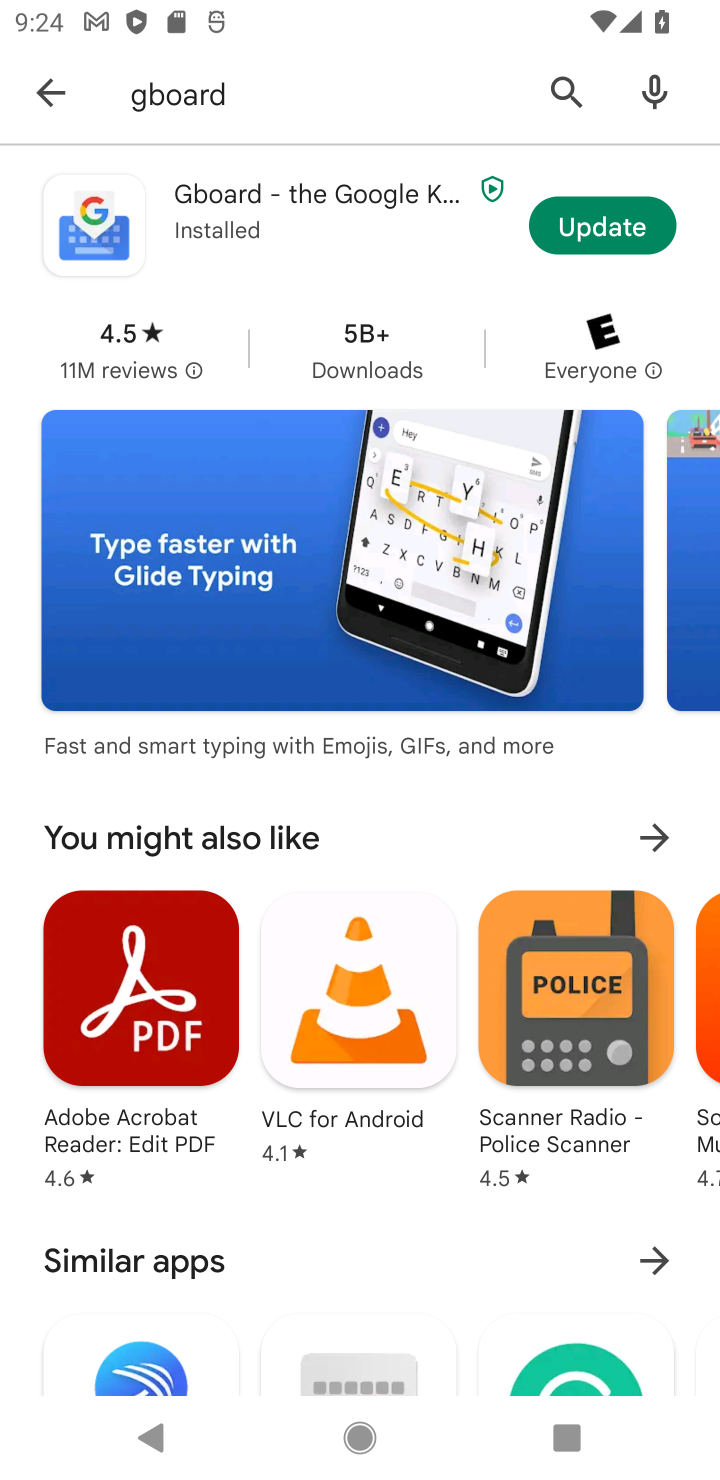
Step 28: click (619, 209)
Your task to perform on an android device: uninstall "Gboard" Image 29: 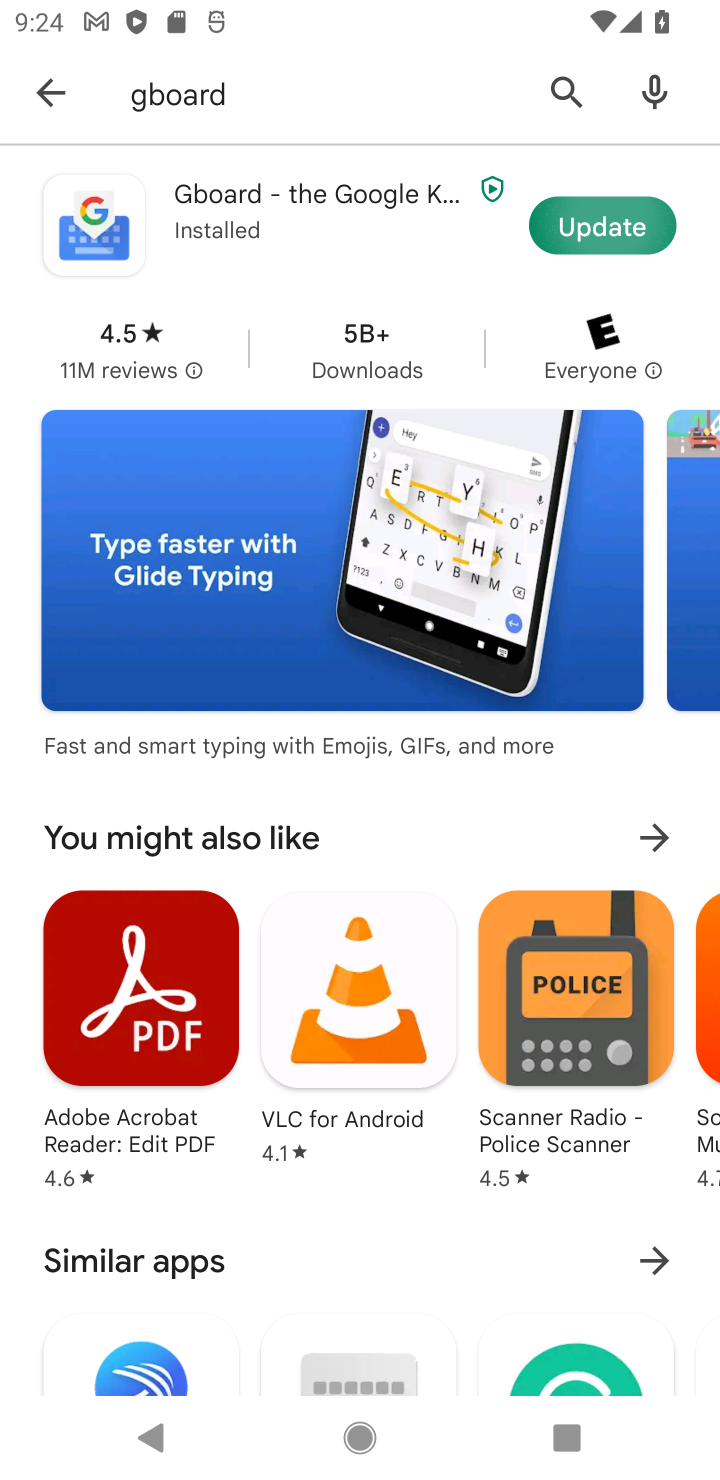
Step 29: click (618, 226)
Your task to perform on an android device: uninstall "Gboard" Image 30: 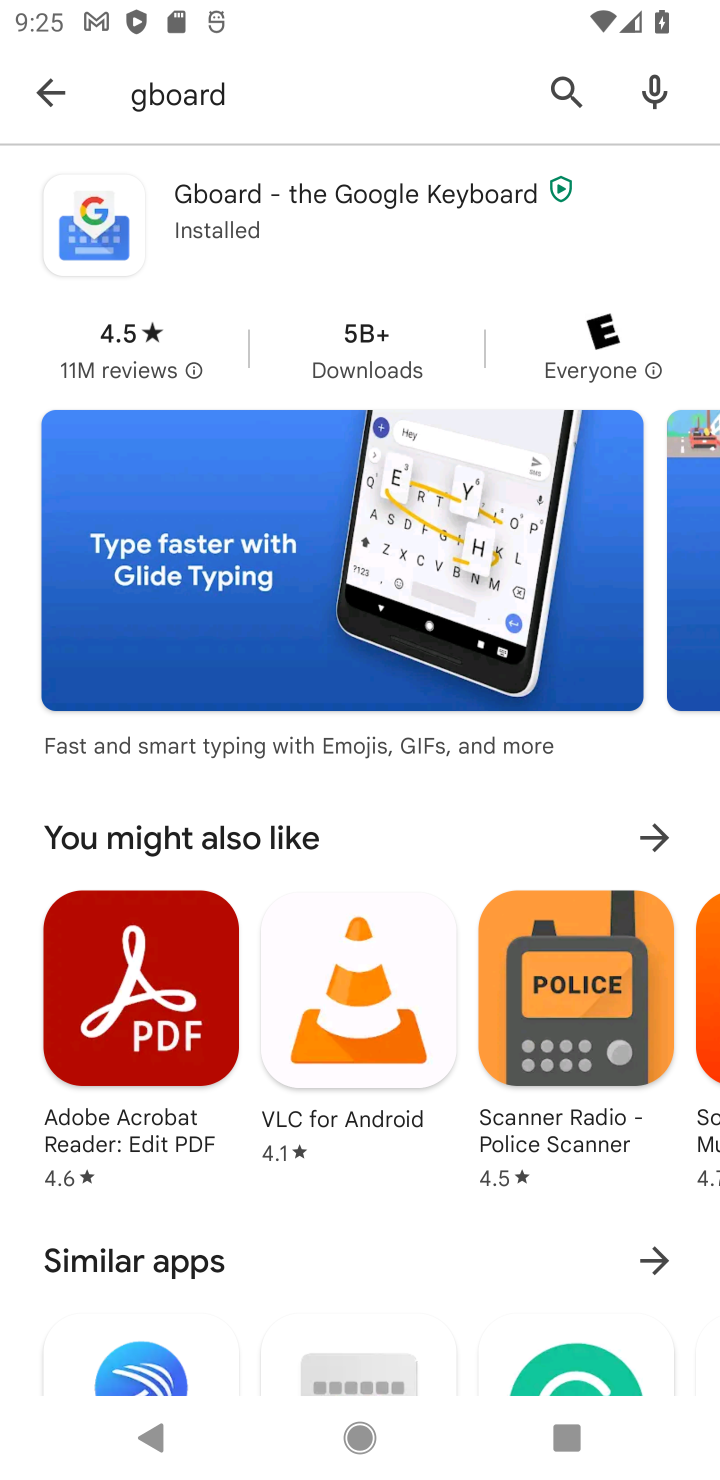
Step 30: click (512, 198)
Your task to perform on an android device: uninstall "Gboard" Image 31: 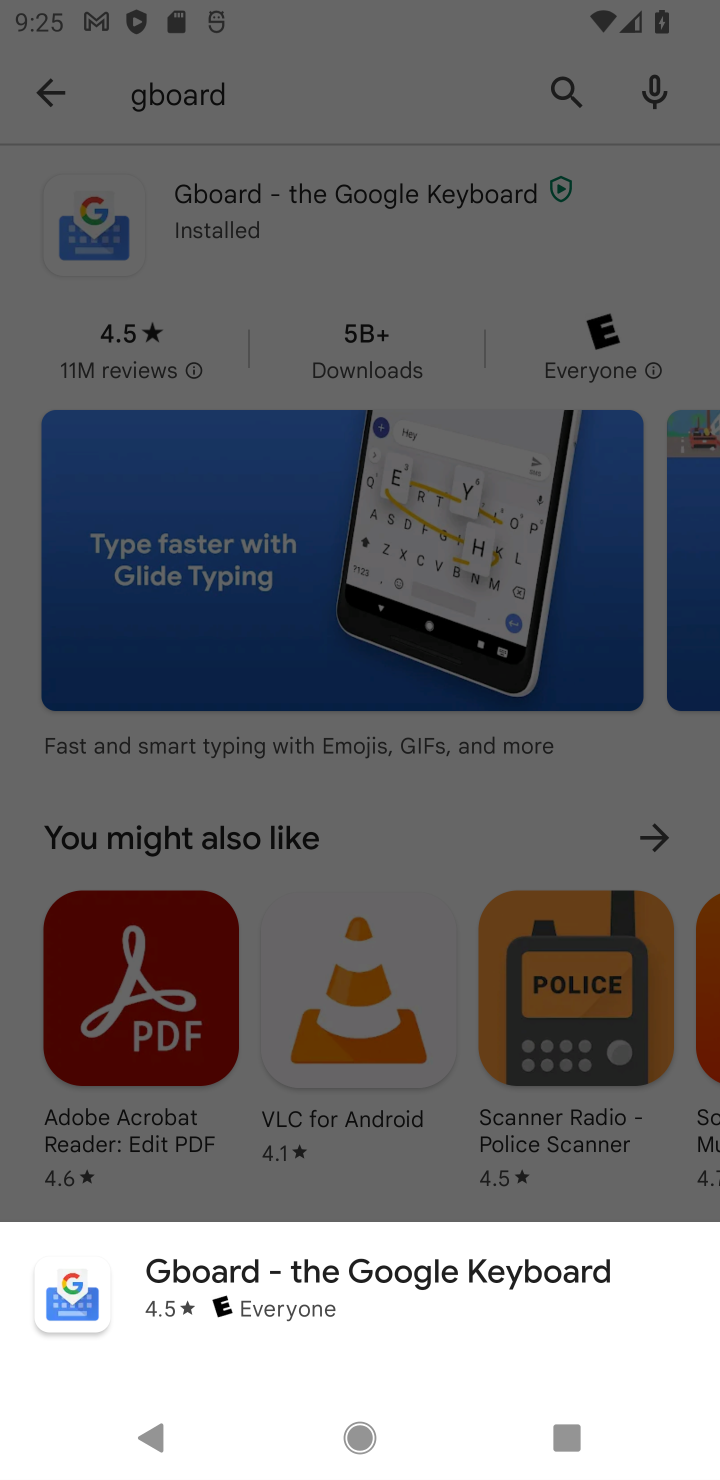
Step 31: click (507, 191)
Your task to perform on an android device: uninstall "Gboard" Image 32: 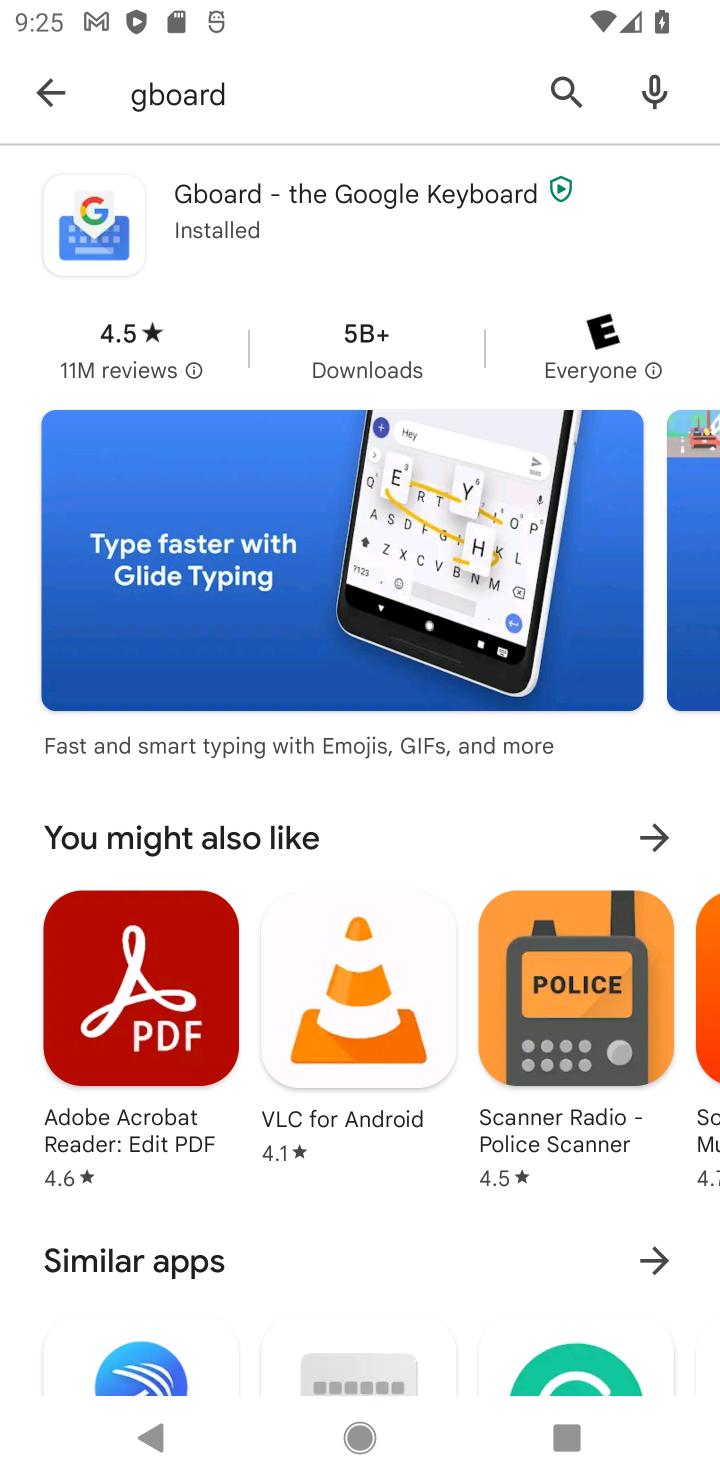
Step 32: click (239, 215)
Your task to perform on an android device: uninstall "Gboard" Image 33: 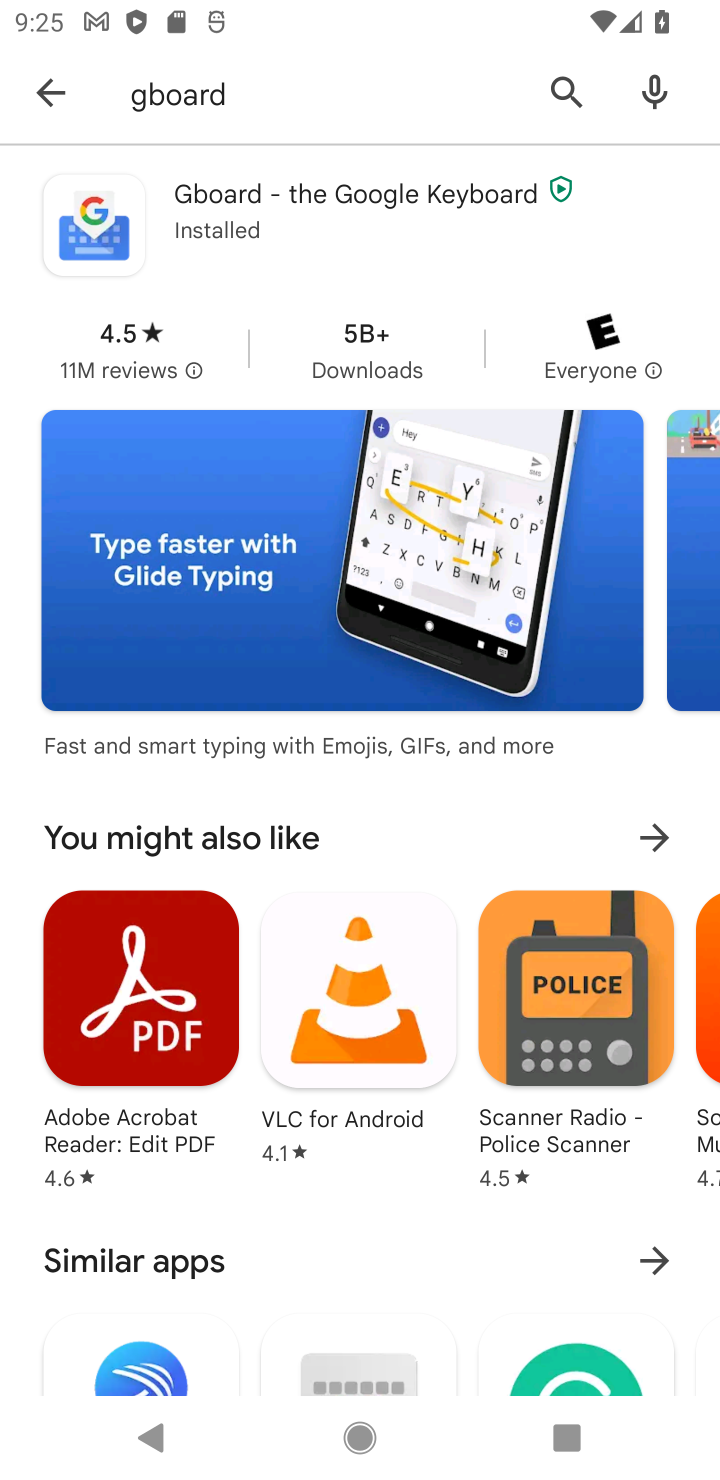
Step 33: click (245, 189)
Your task to perform on an android device: uninstall "Gboard" Image 34: 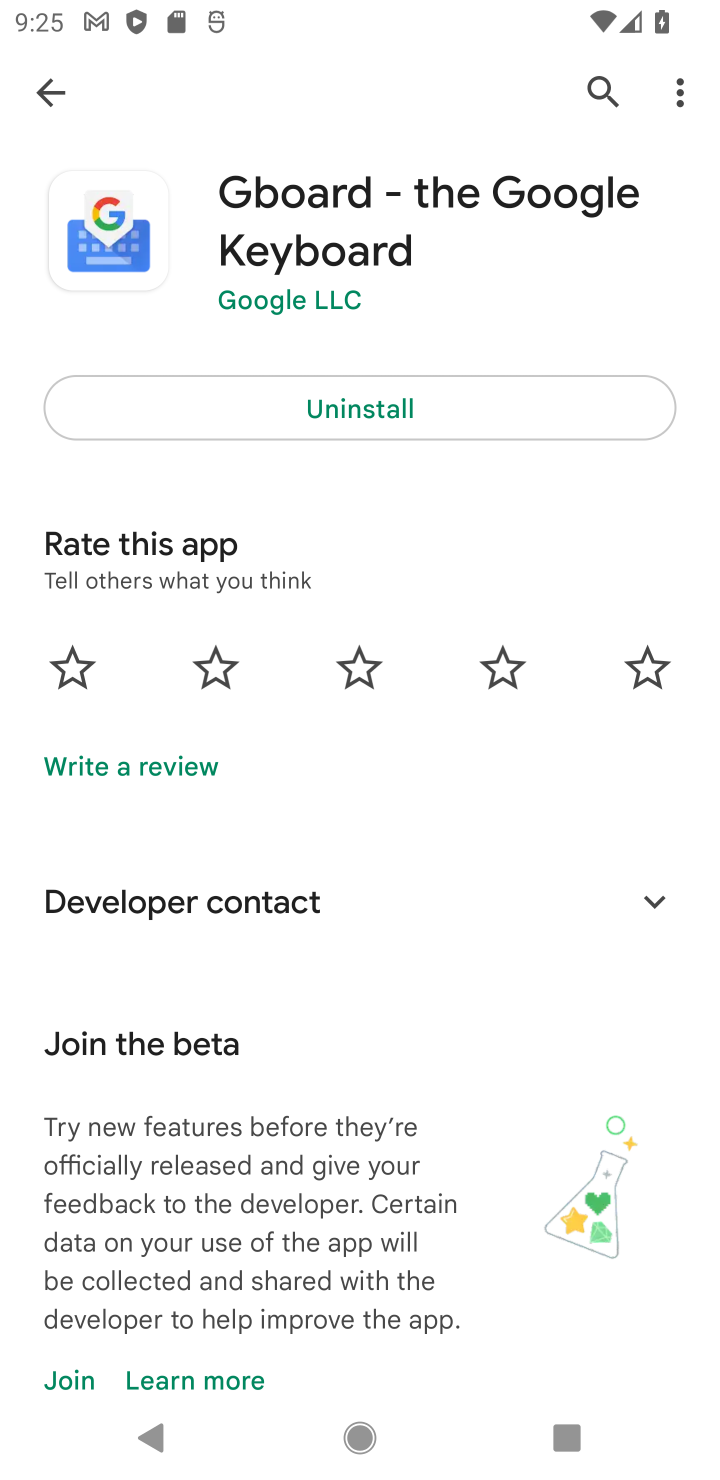
Step 34: click (357, 399)
Your task to perform on an android device: uninstall "Gboard" Image 35: 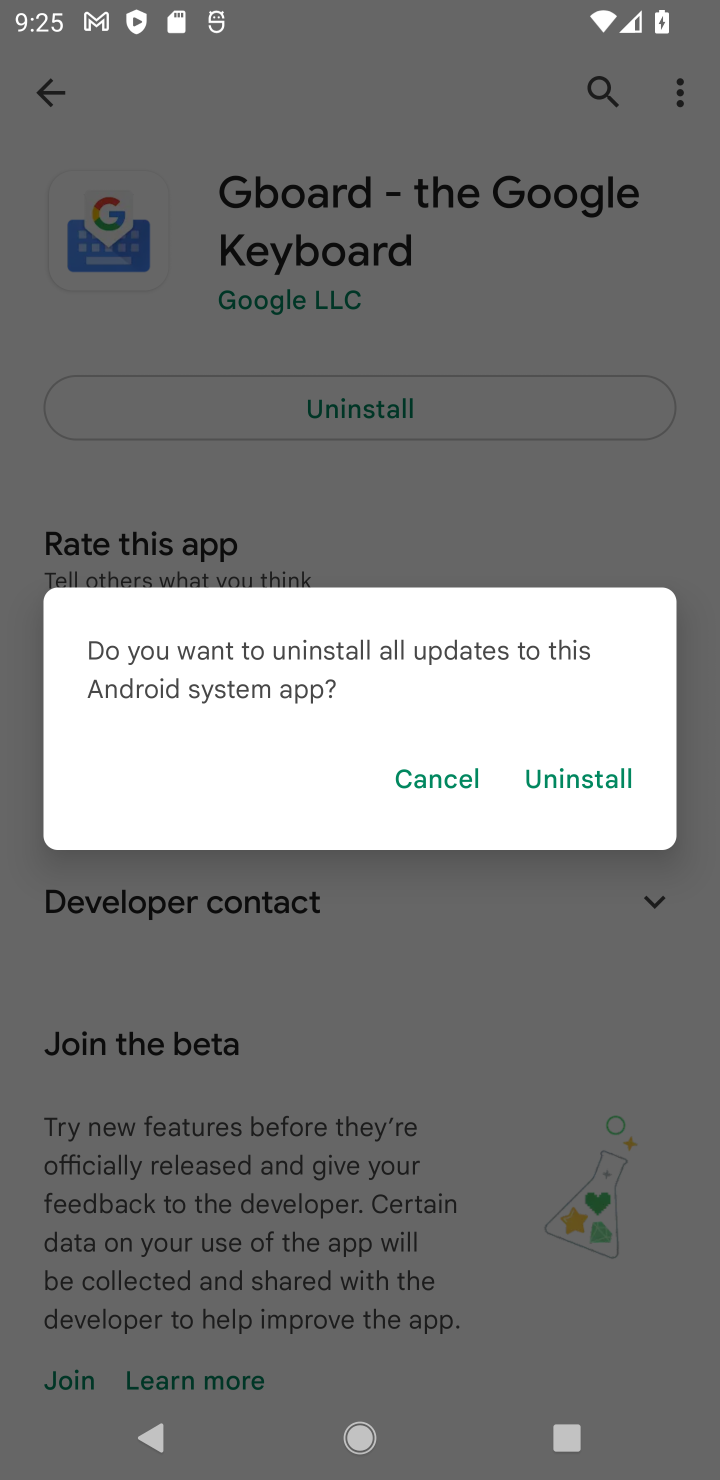
Step 35: click (619, 777)
Your task to perform on an android device: uninstall "Gboard" Image 36: 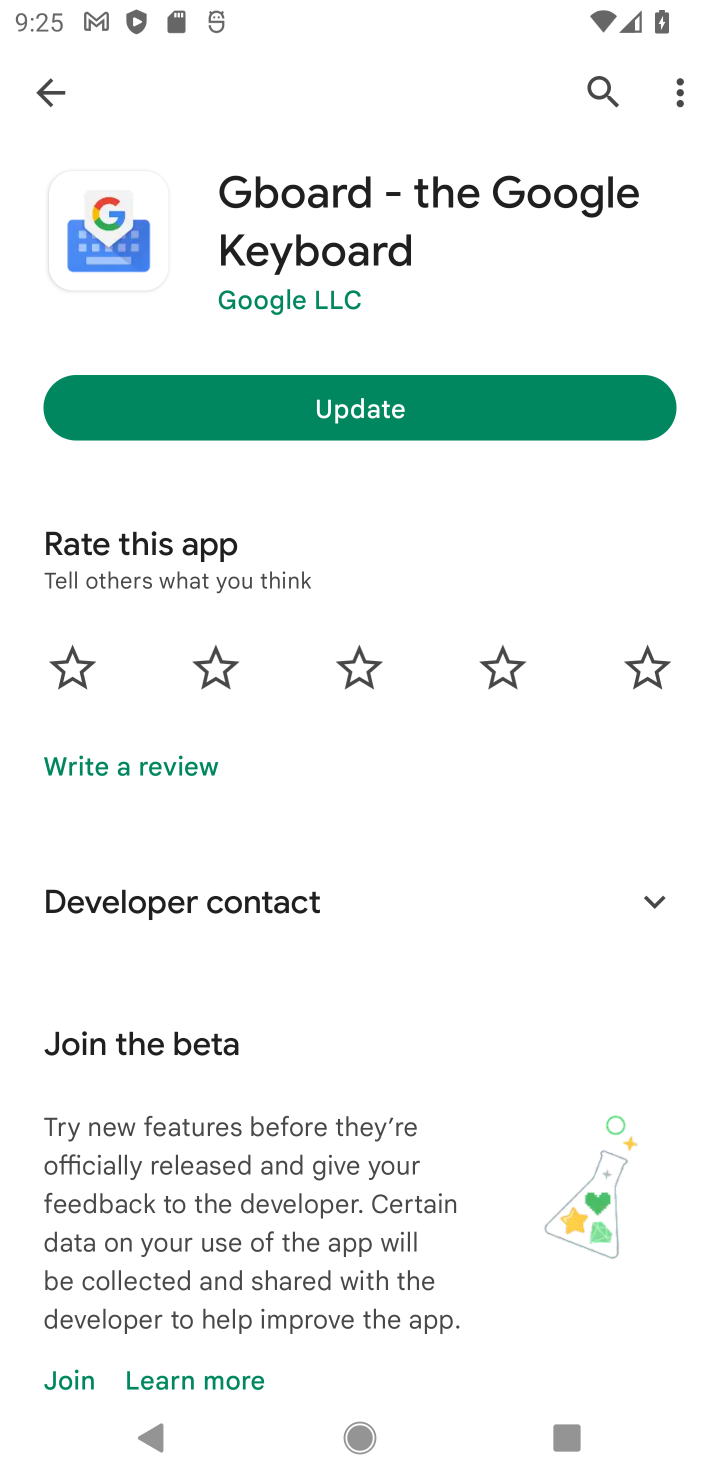
Step 36: task complete